Your task to perform on an android device: install app "Speedtest by Ookla" Image 0: 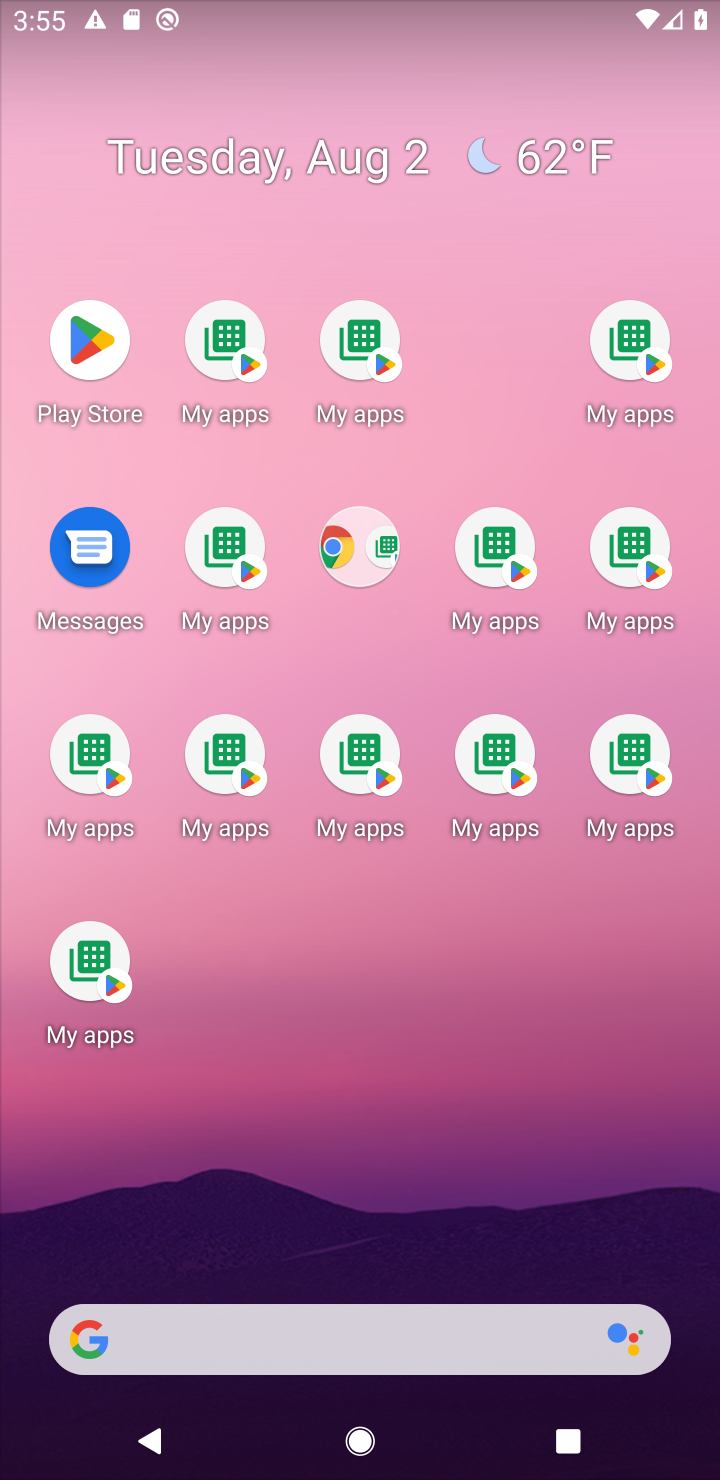
Step 0: click (329, 519)
Your task to perform on an android device: install app "Speedtest by Ookla" Image 1: 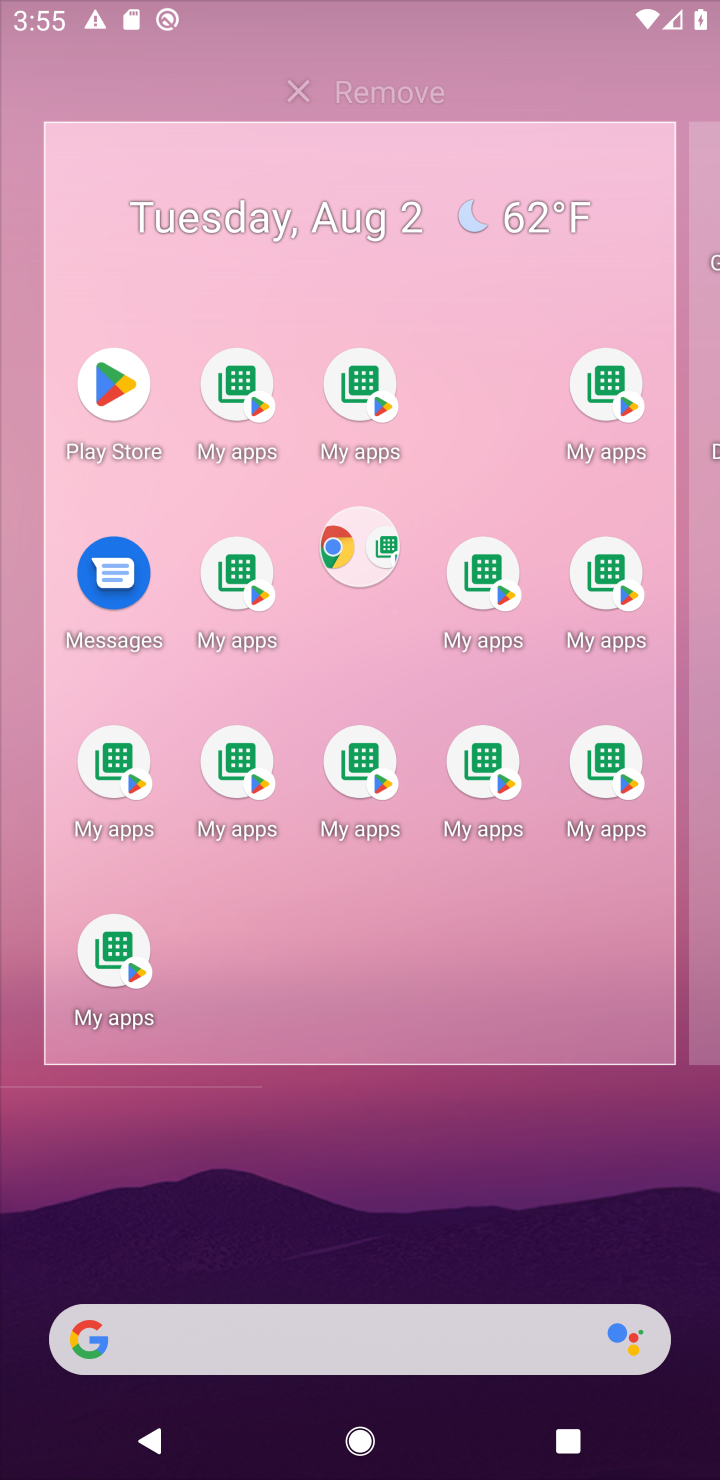
Step 1: click (124, 348)
Your task to perform on an android device: install app "Speedtest by Ookla" Image 2: 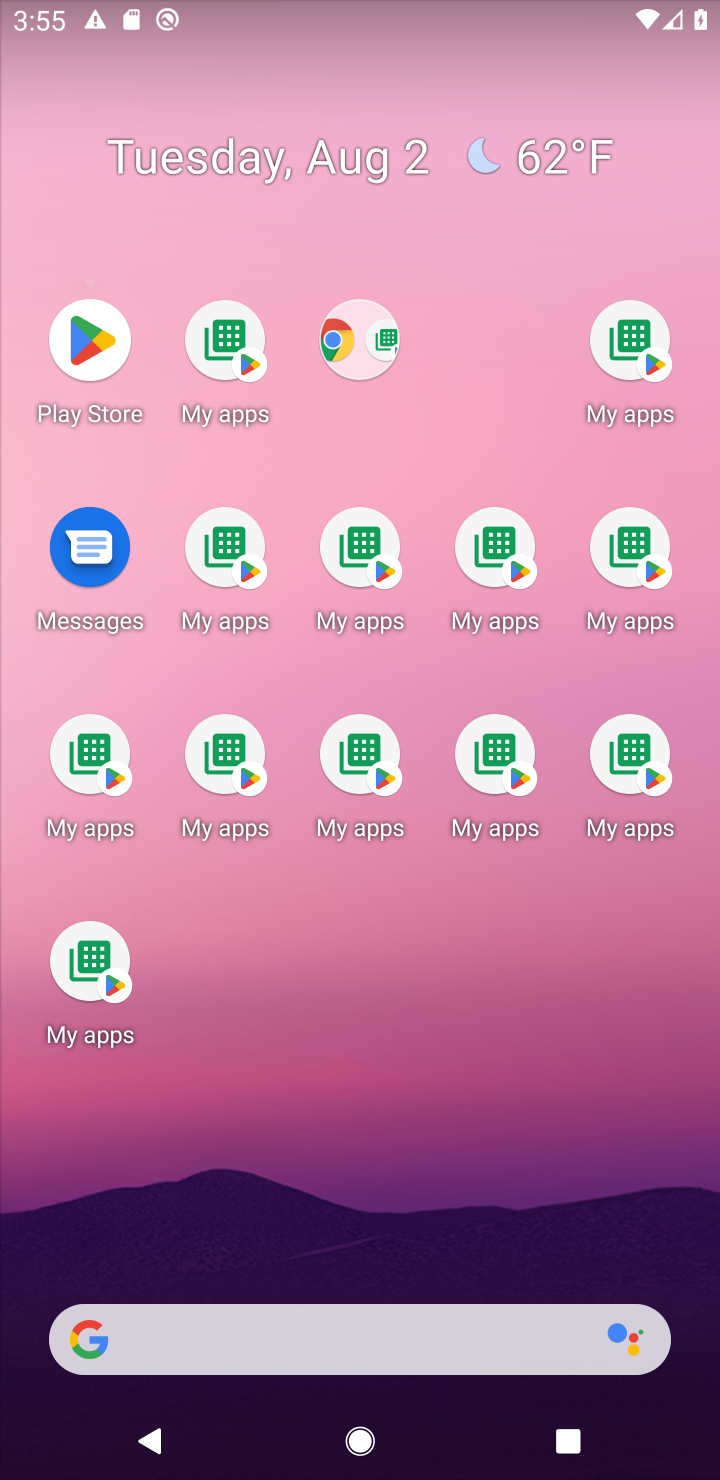
Step 2: click (82, 354)
Your task to perform on an android device: install app "Speedtest by Ookla" Image 3: 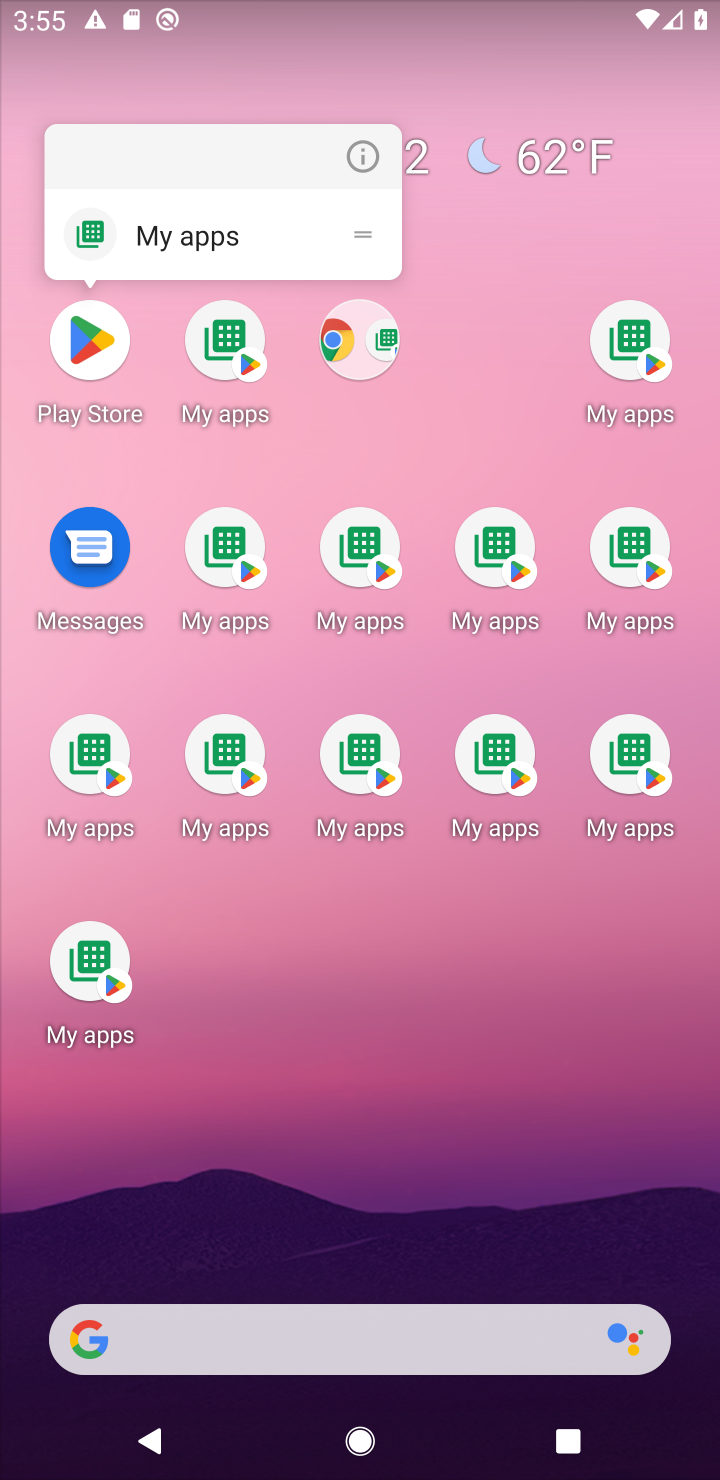
Step 3: click (94, 319)
Your task to perform on an android device: install app "Speedtest by Ookla" Image 4: 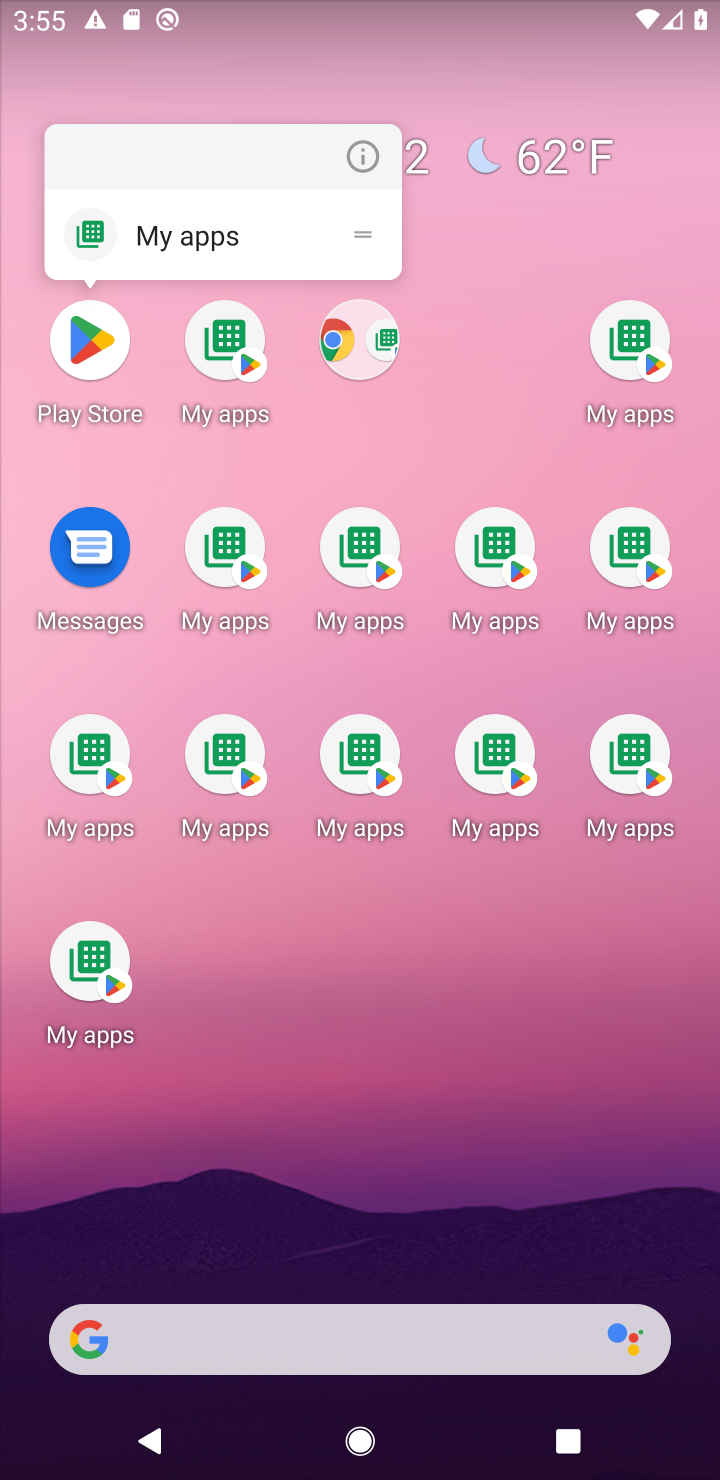
Step 4: click (117, 246)
Your task to perform on an android device: install app "Speedtest by Ookla" Image 5: 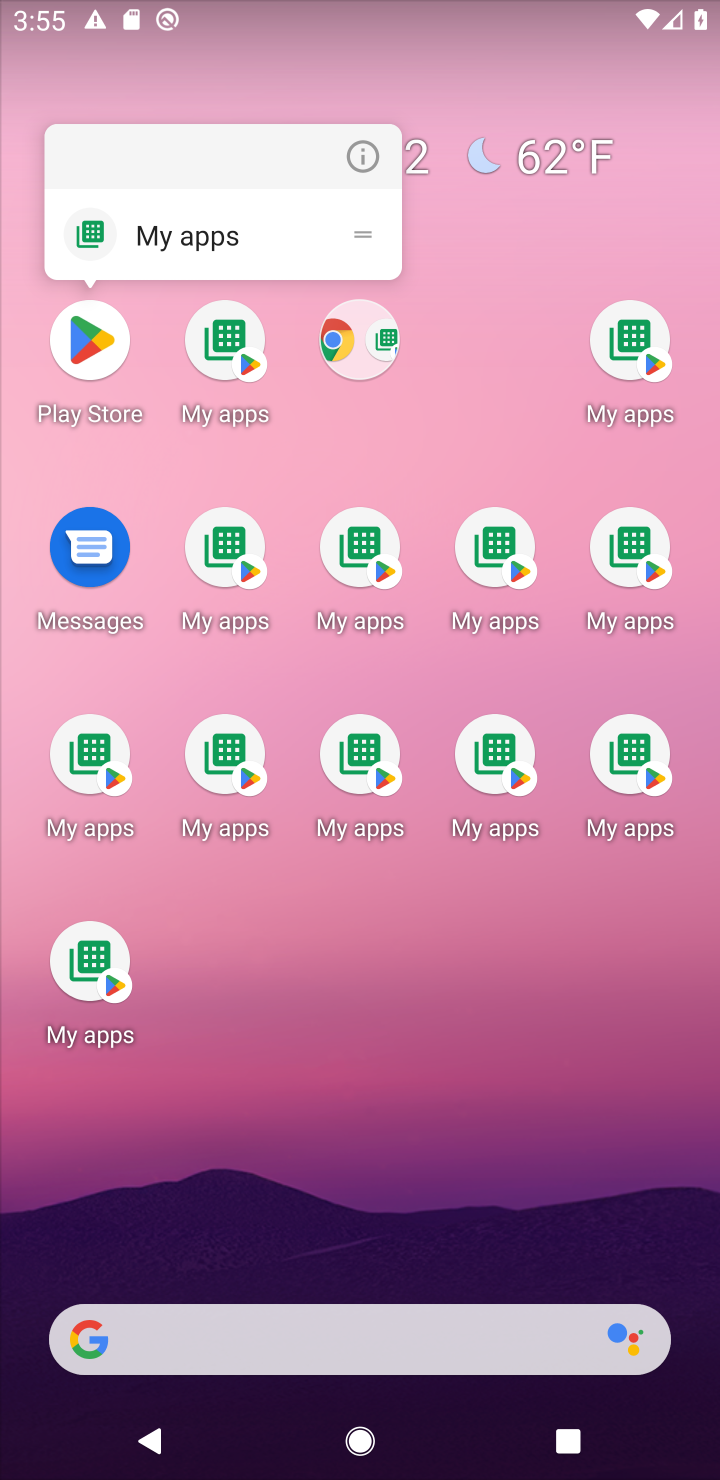
Step 5: click (178, 231)
Your task to perform on an android device: install app "Speedtest by Ookla" Image 6: 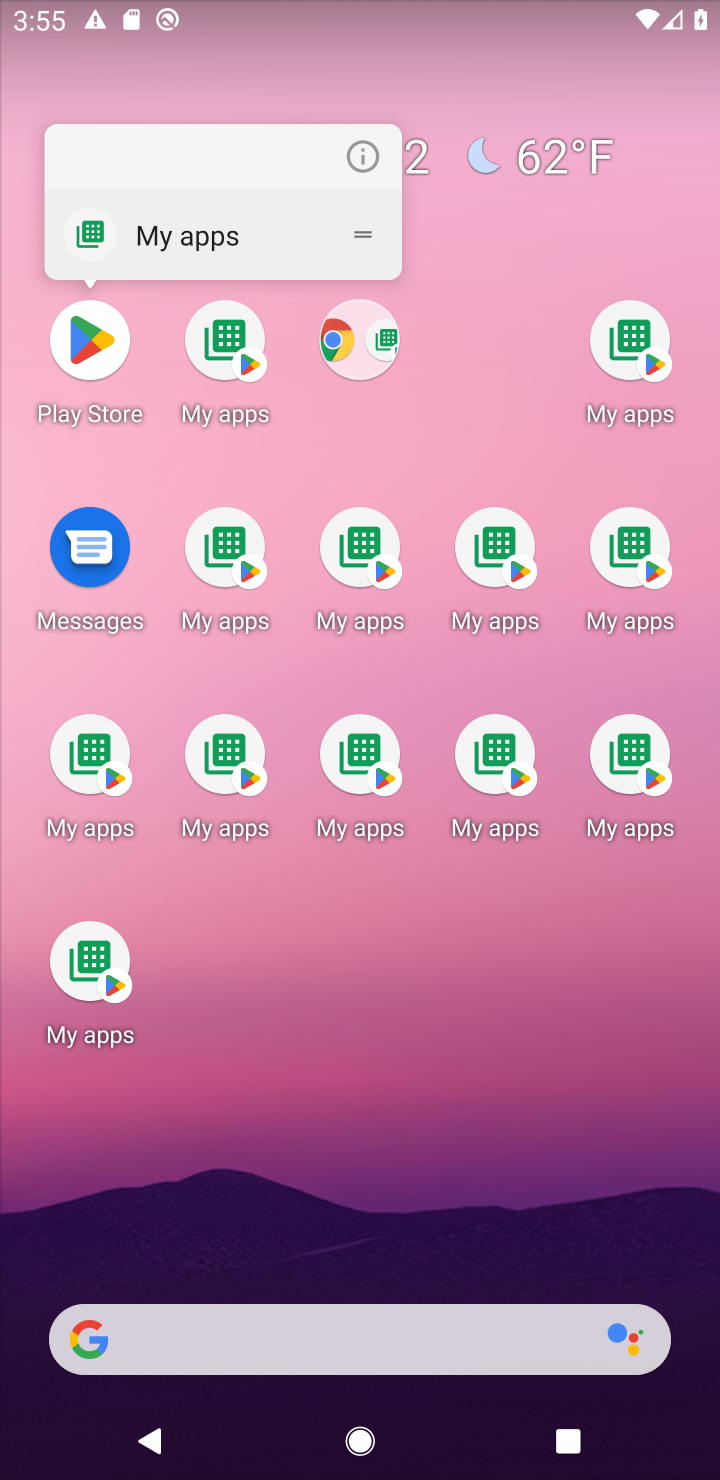
Step 6: click (263, 238)
Your task to perform on an android device: install app "Speedtest by Ookla" Image 7: 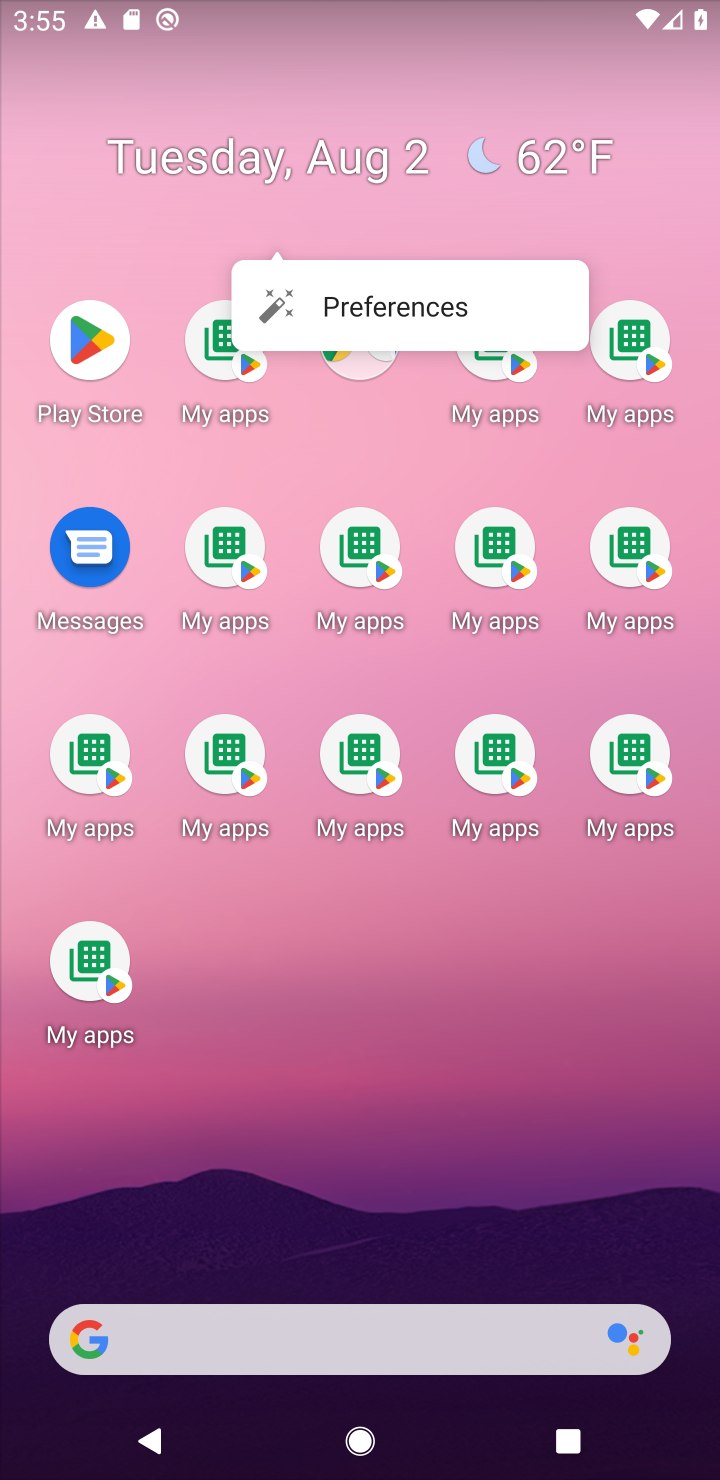
Step 7: click (301, 107)
Your task to perform on an android device: install app "Speedtest by Ookla" Image 8: 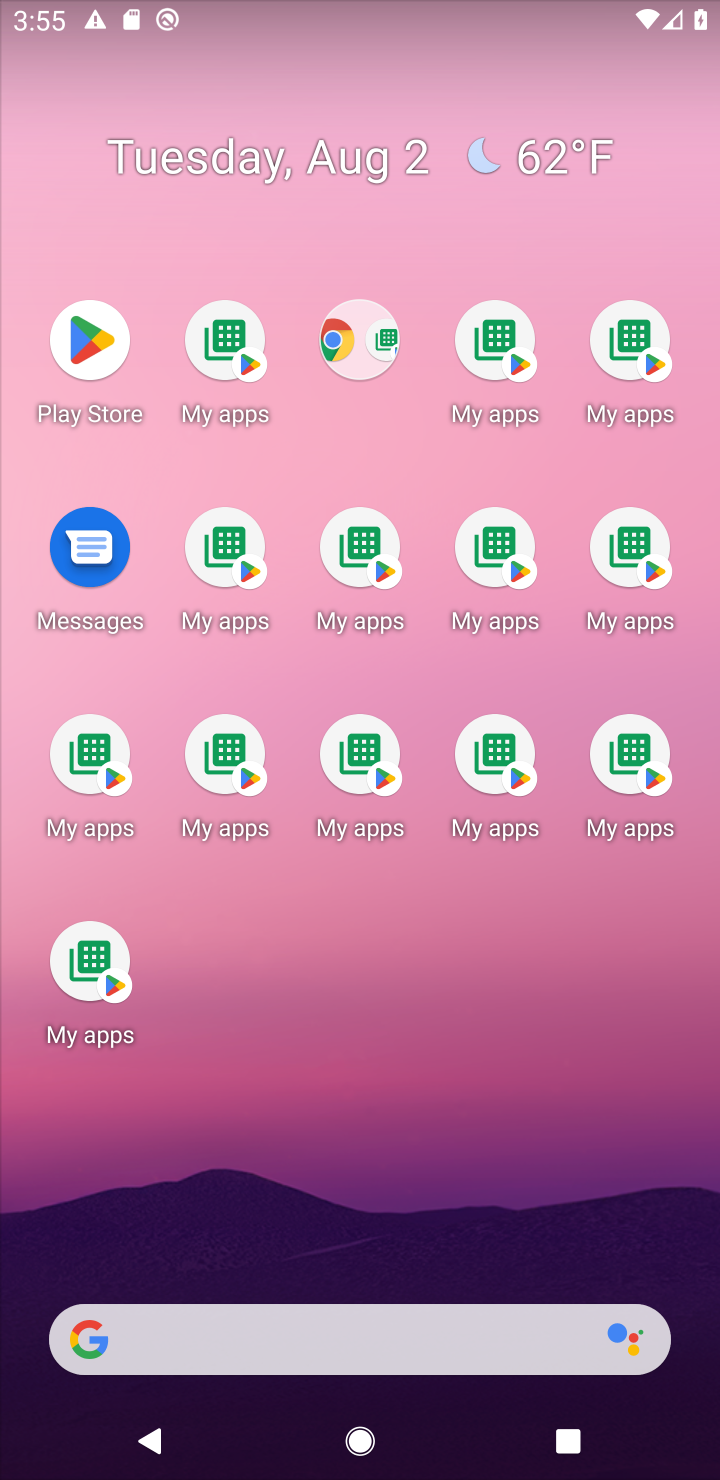
Step 8: drag from (446, 436) to (322, 483)
Your task to perform on an android device: install app "Speedtest by Ookla" Image 9: 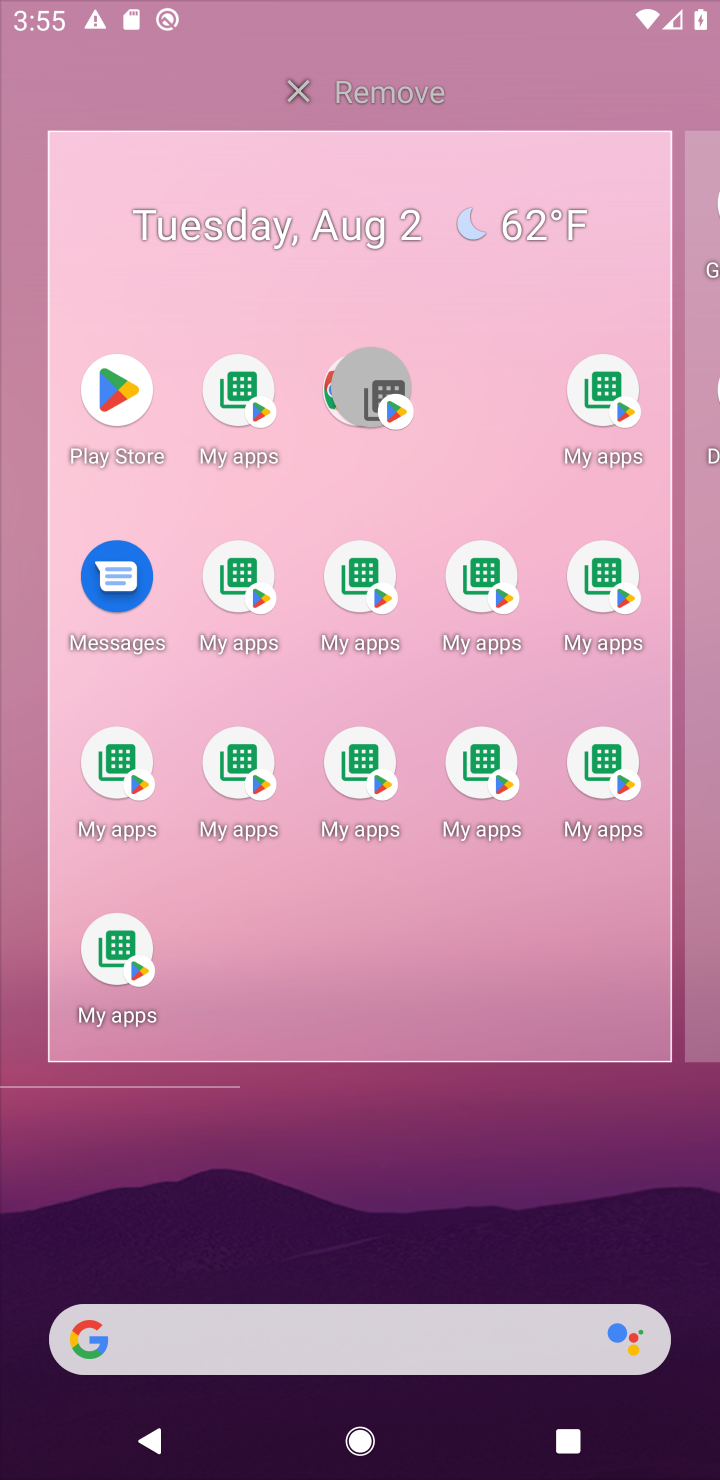
Step 9: click (267, 307)
Your task to perform on an android device: install app "Speedtest by Ookla" Image 10: 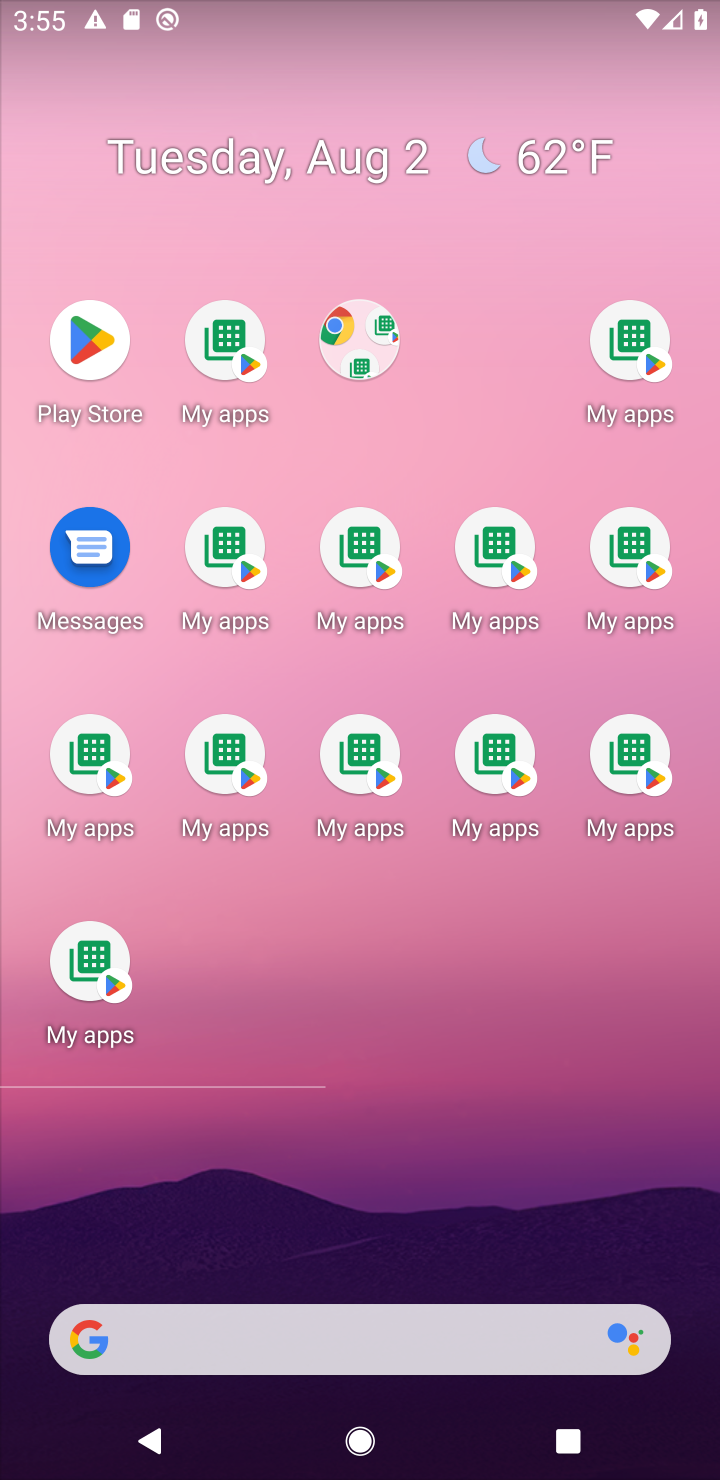
Step 10: click (68, 335)
Your task to perform on an android device: install app "Speedtest by Ookla" Image 11: 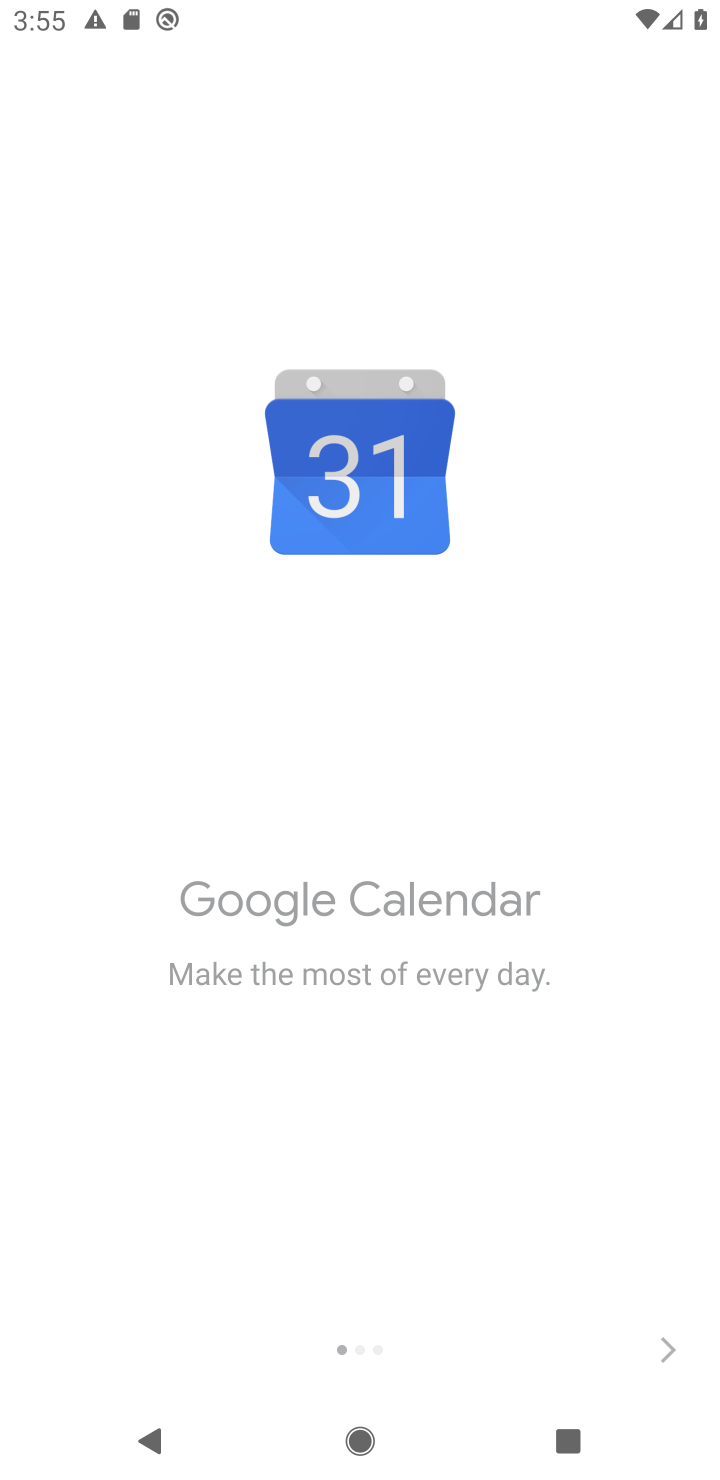
Step 11: click (82, 338)
Your task to perform on an android device: install app "Speedtest by Ookla" Image 12: 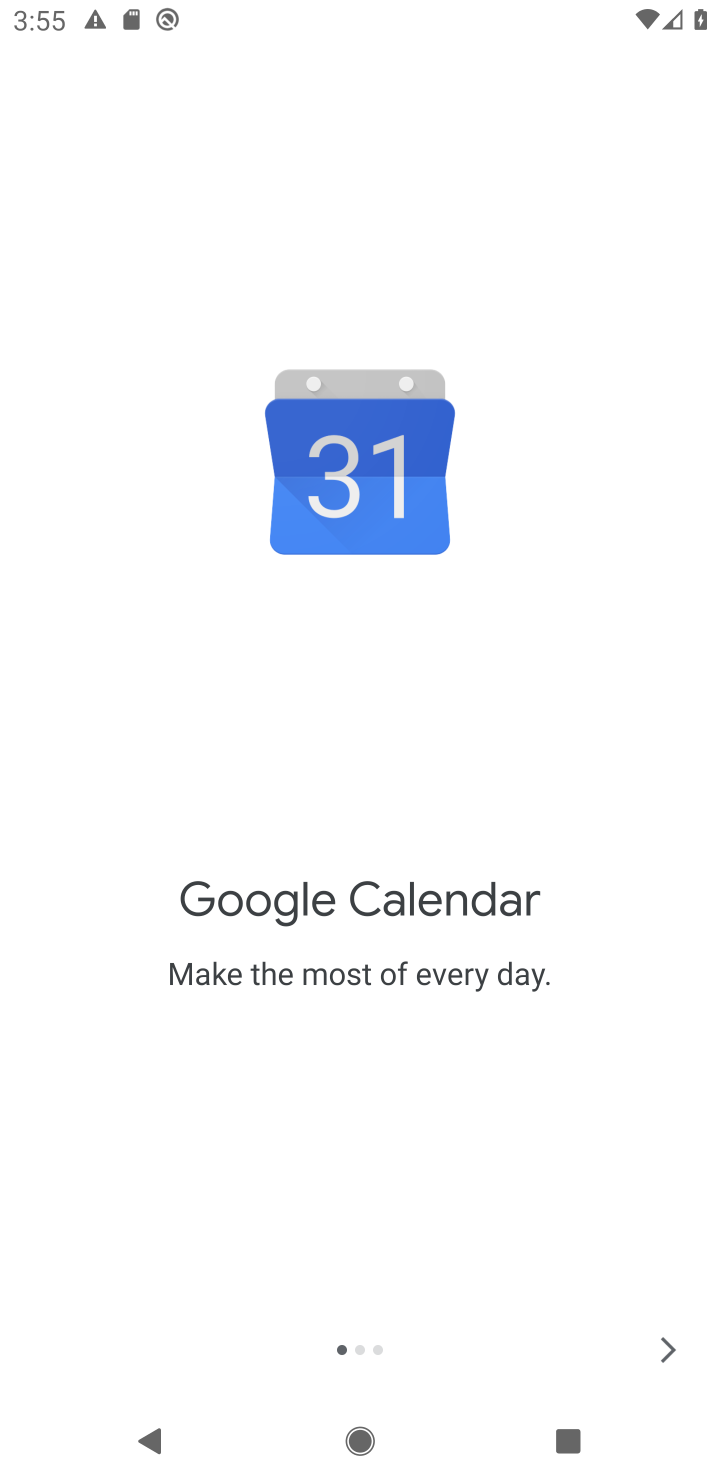
Step 12: click (679, 1330)
Your task to perform on an android device: install app "Speedtest by Ookla" Image 13: 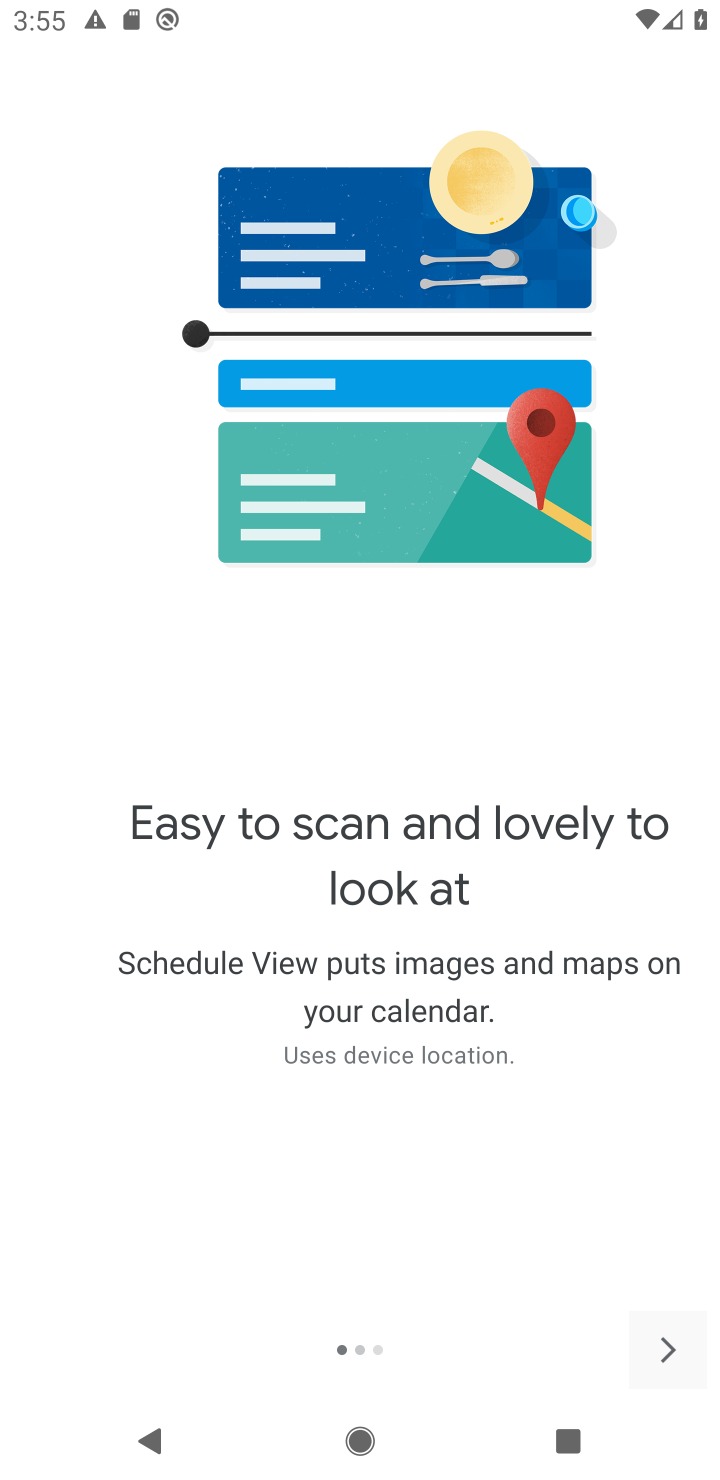
Step 13: click (663, 1332)
Your task to perform on an android device: install app "Speedtest by Ookla" Image 14: 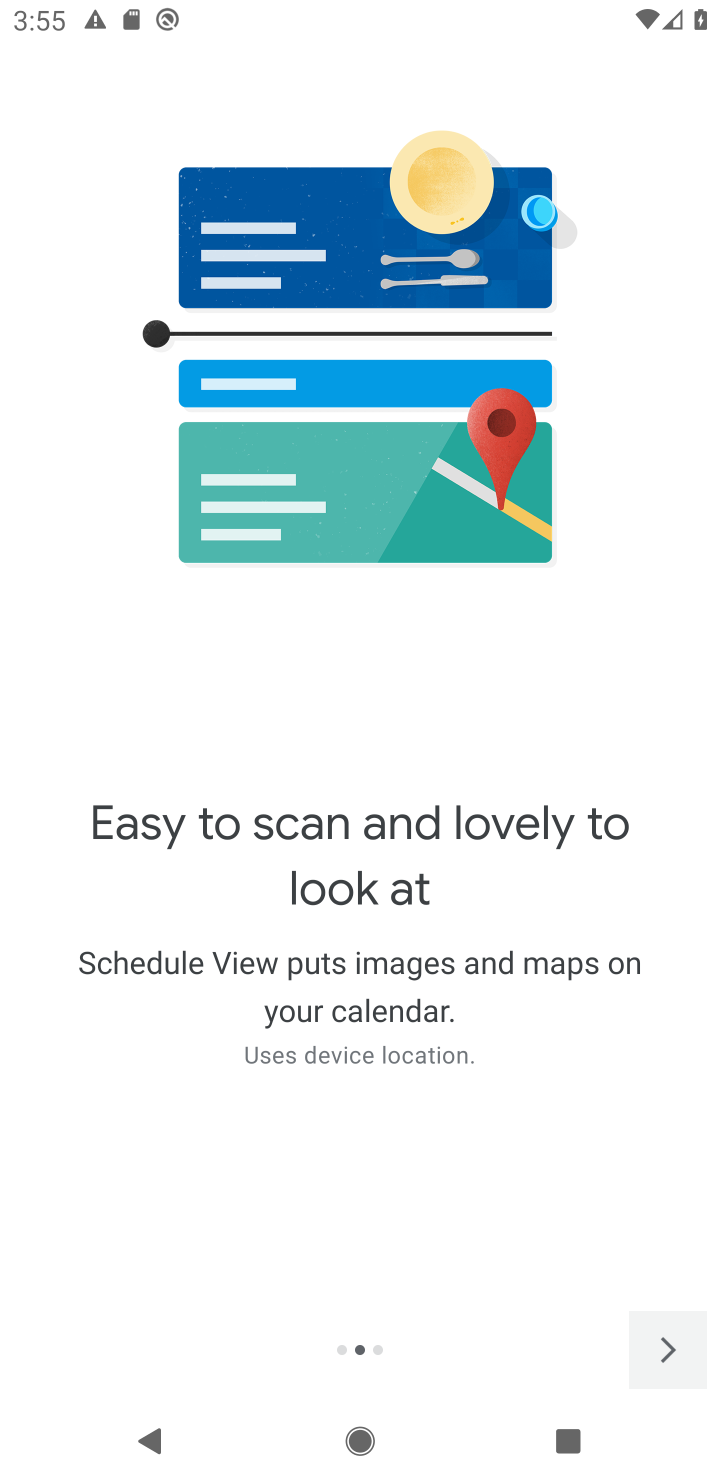
Step 14: click (656, 1330)
Your task to perform on an android device: install app "Speedtest by Ookla" Image 15: 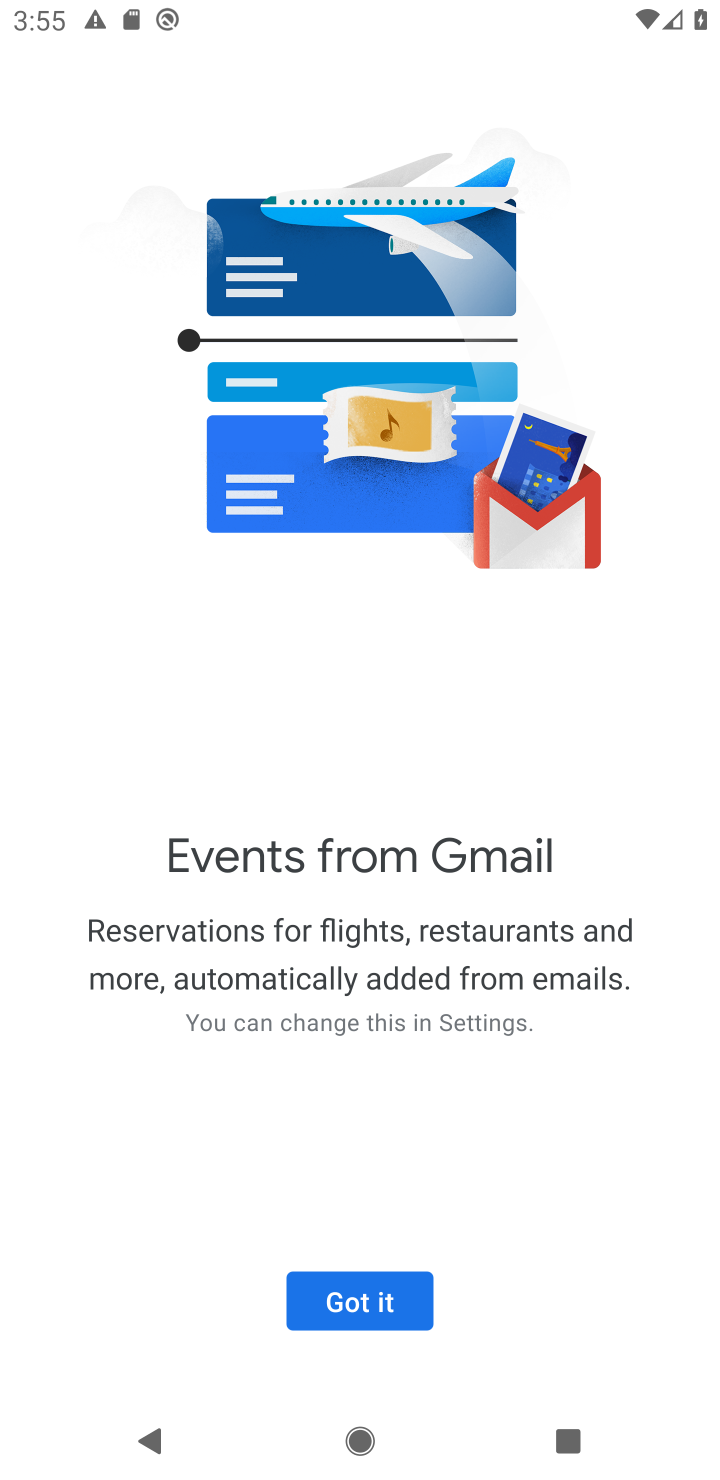
Step 15: click (651, 1345)
Your task to perform on an android device: install app "Speedtest by Ookla" Image 16: 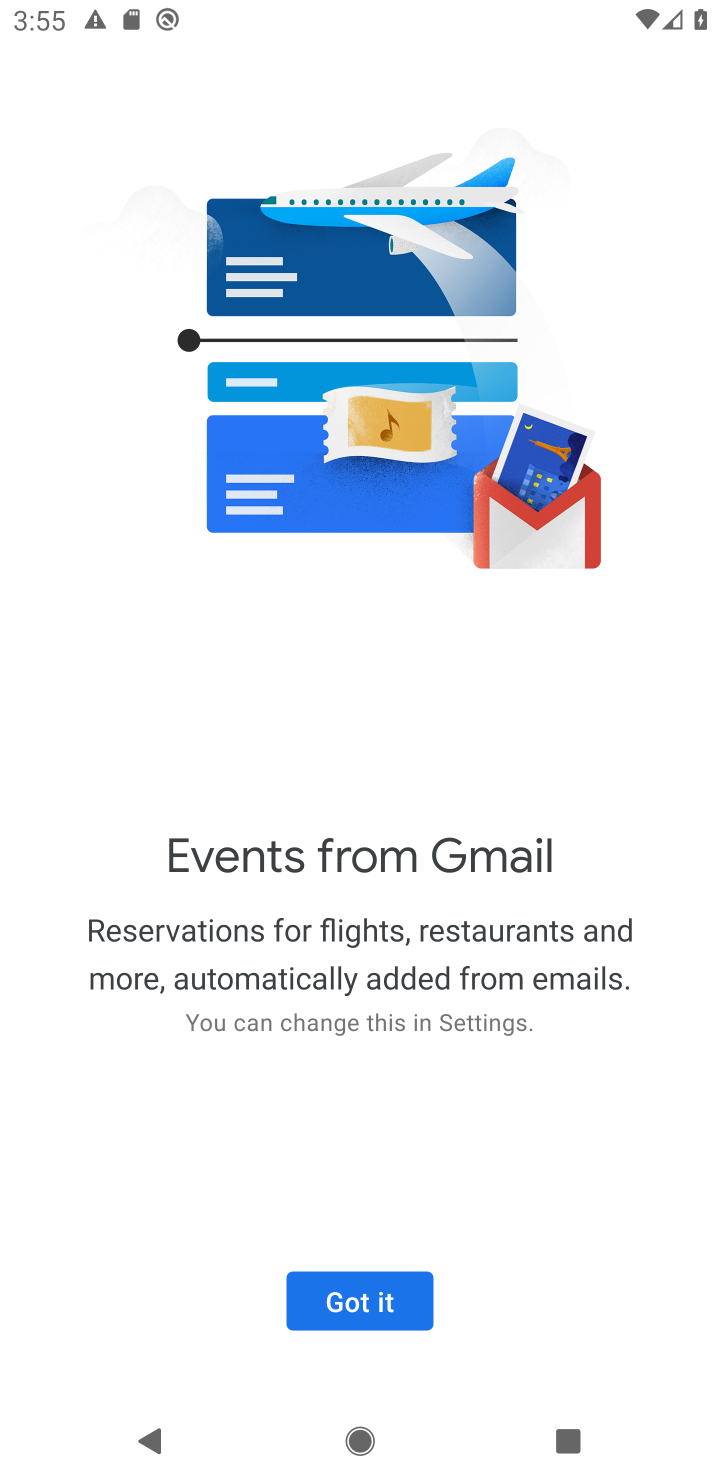
Step 16: click (361, 1275)
Your task to perform on an android device: install app "Speedtest by Ookla" Image 17: 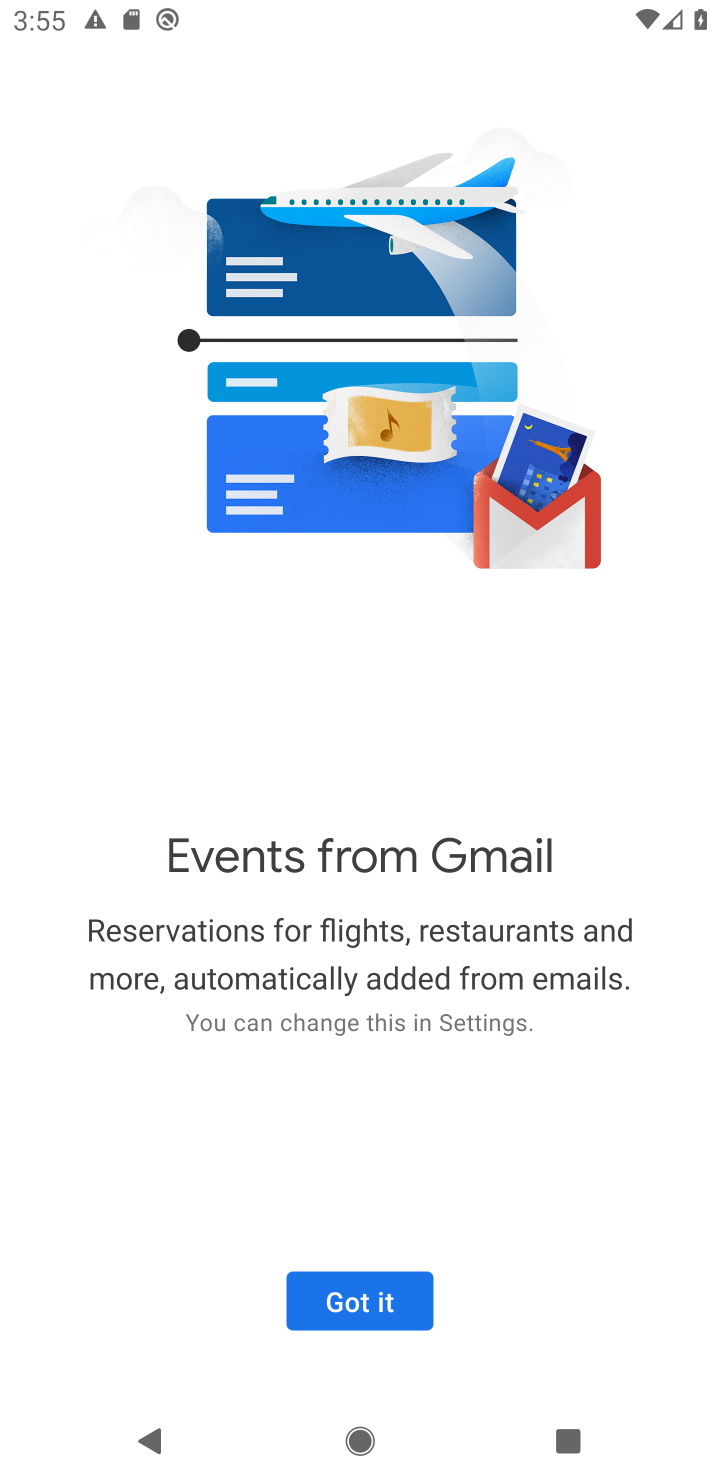
Step 17: click (372, 1295)
Your task to perform on an android device: install app "Speedtest by Ookla" Image 18: 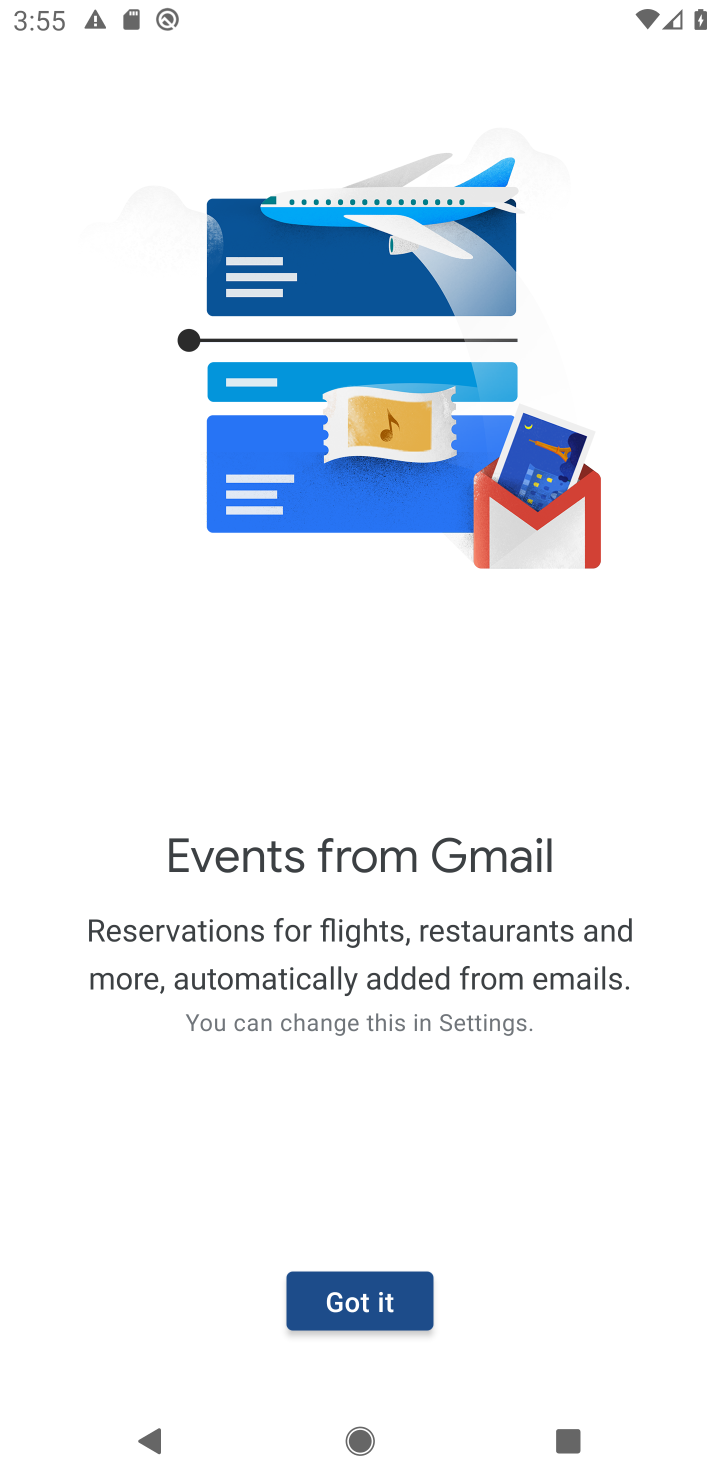
Step 18: click (395, 1314)
Your task to perform on an android device: install app "Speedtest by Ookla" Image 19: 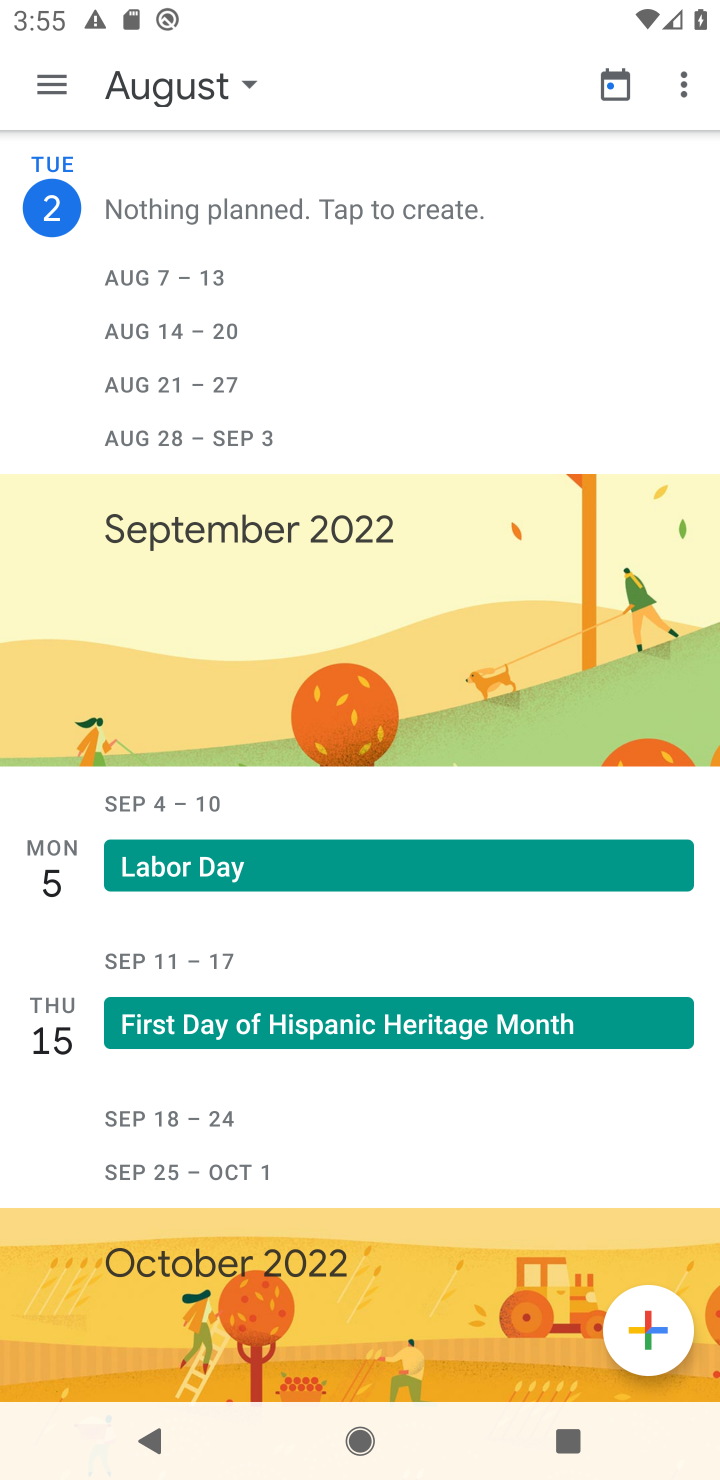
Step 19: press back button
Your task to perform on an android device: install app "Speedtest by Ookla" Image 20: 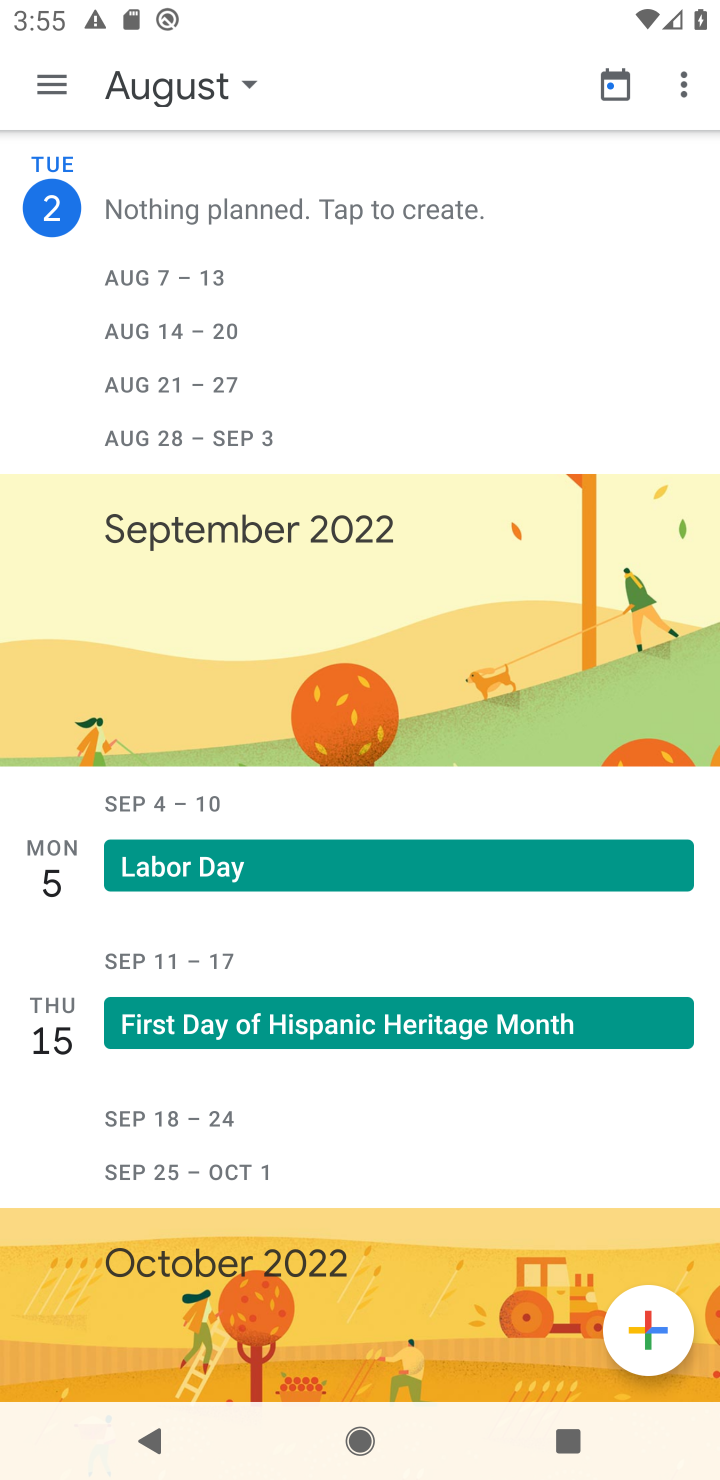
Step 20: press back button
Your task to perform on an android device: install app "Speedtest by Ookla" Image 21: 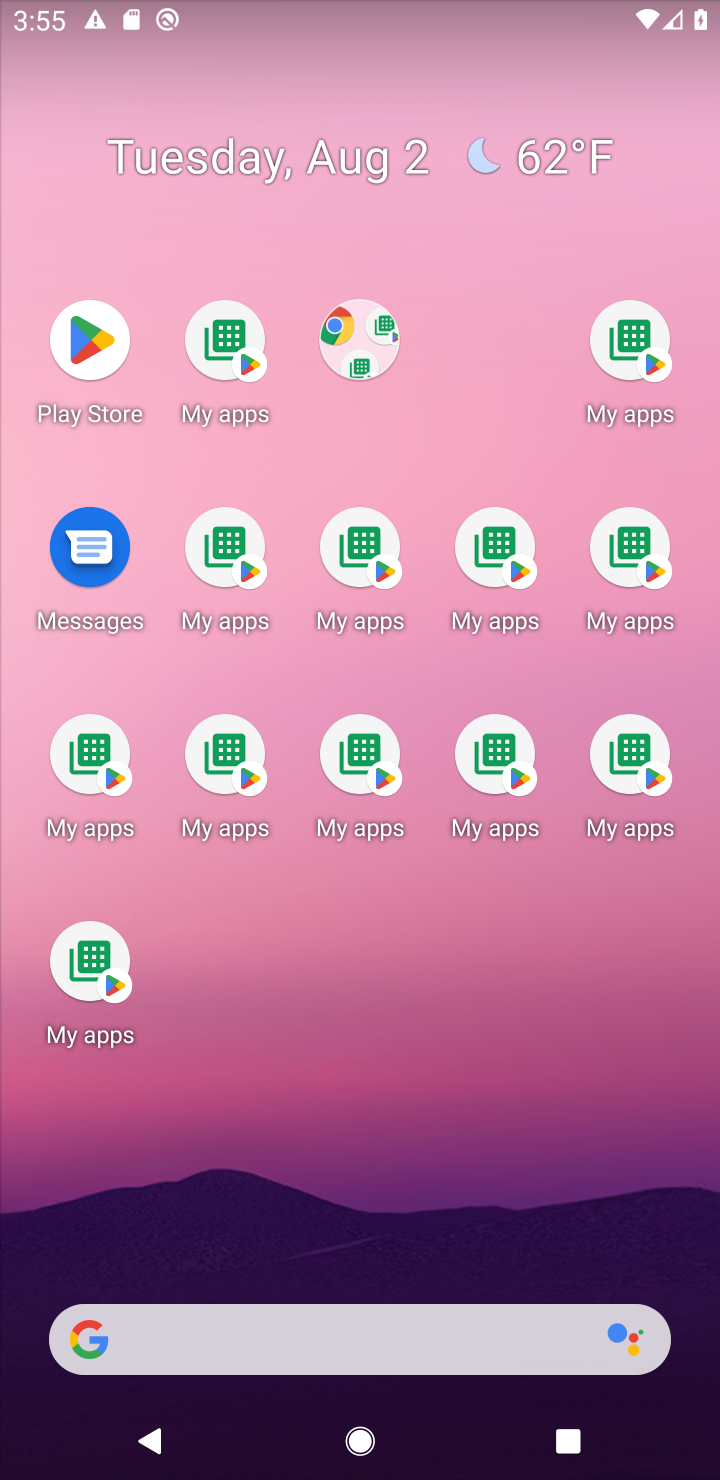
Step 21: click (107, 332)
Your task to perform on an android device: install app "Speedtest by Ookla" Image 22: 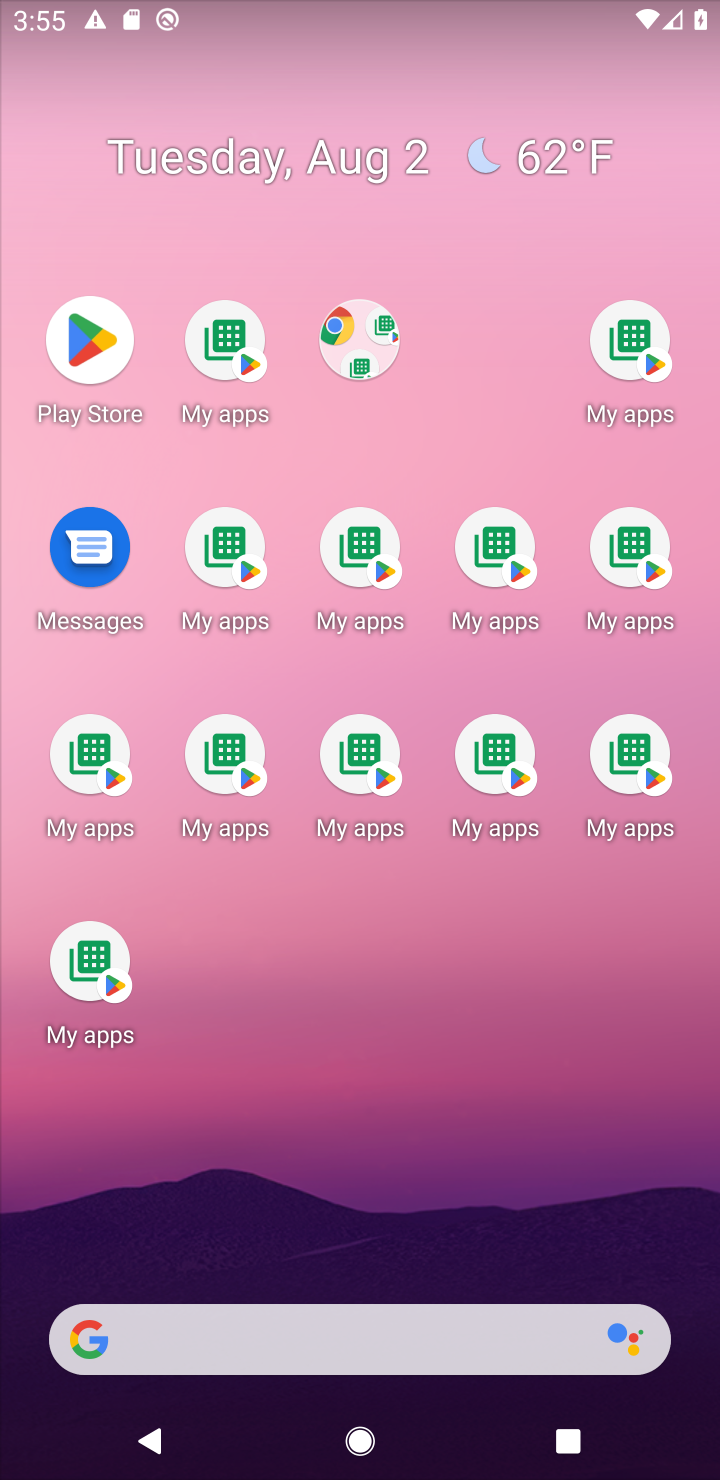
Step 22: click (102, 339)
Your task to perform on an android device: install app "Speedtest by Ookla" Image 23: 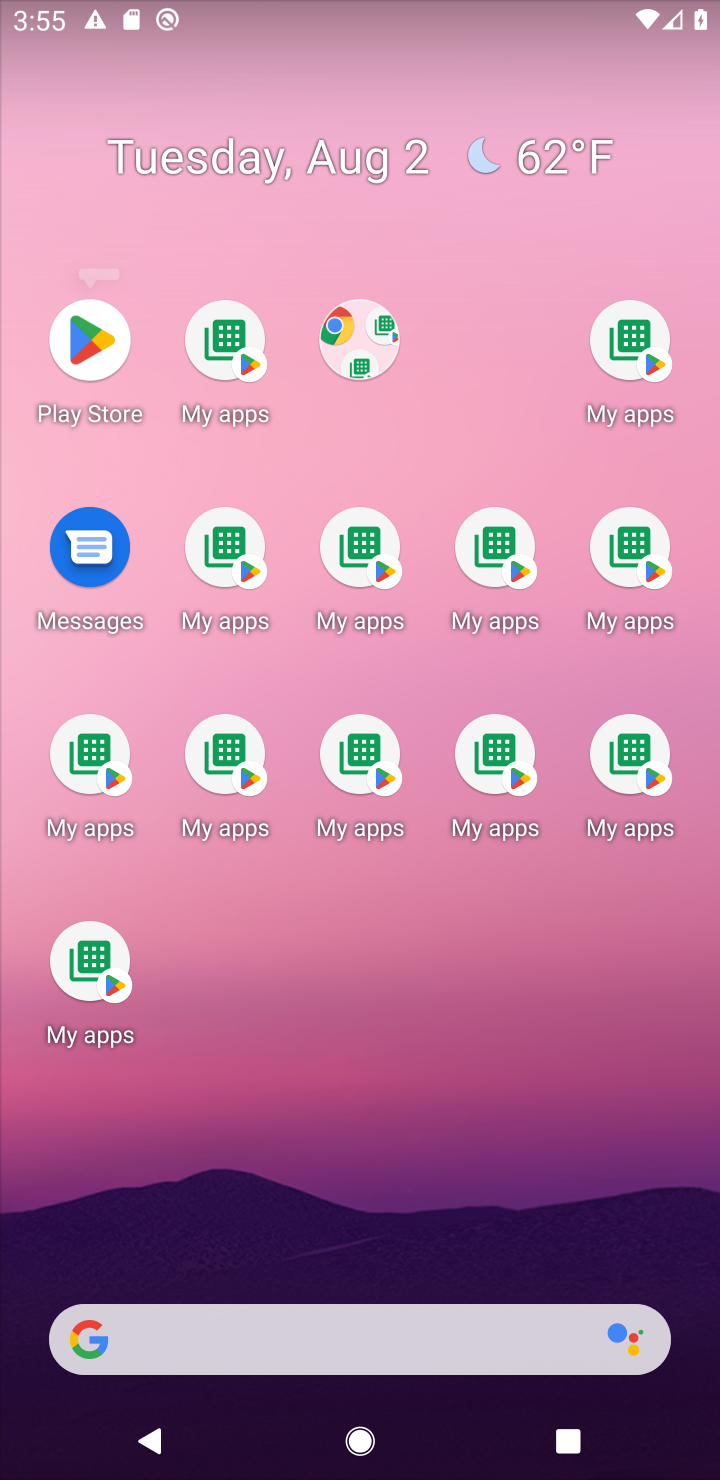
Step 23: click (93, 365)
Your task to perform on an android device: install app "Speedtest by Ookla" Image 24: 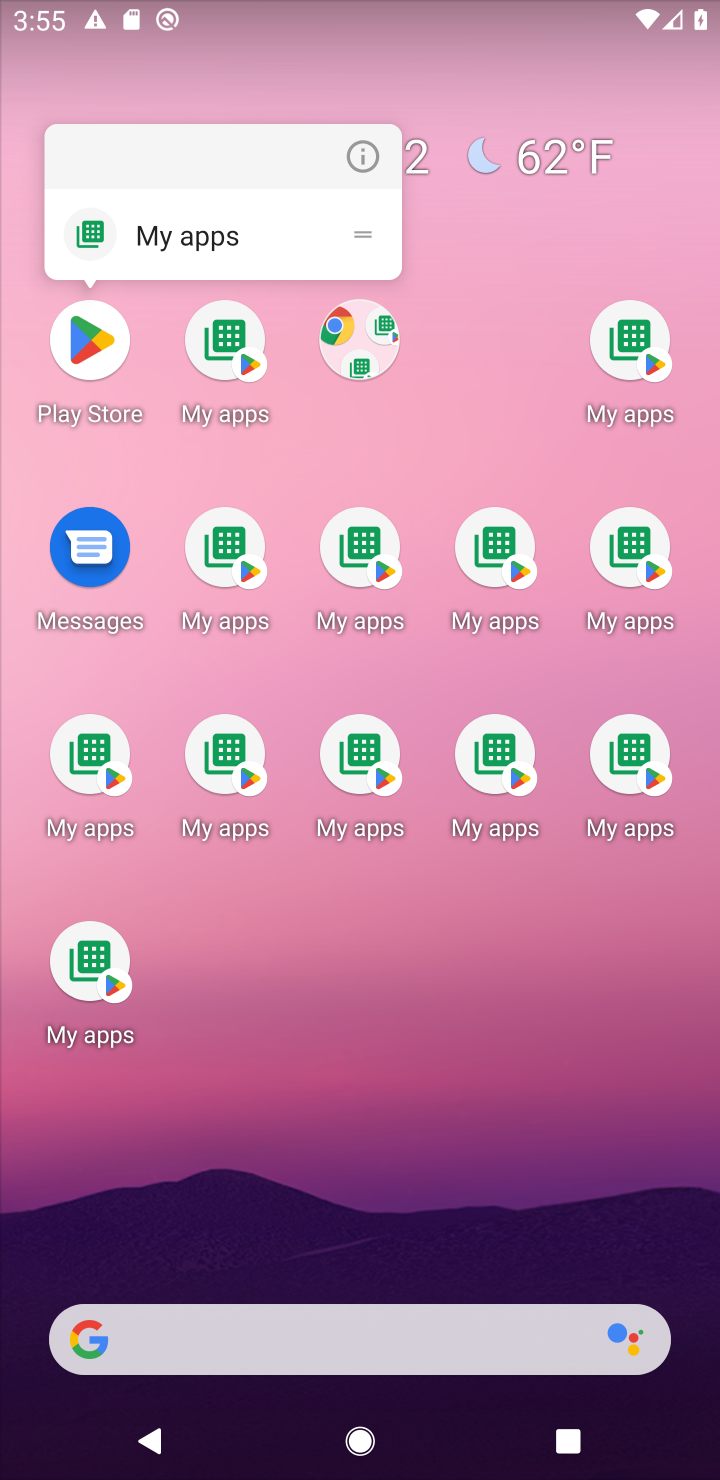
Step 24: click (97, 345)
Your task to perform on an android device: install app "Speedtest by Ookla" Image 25: 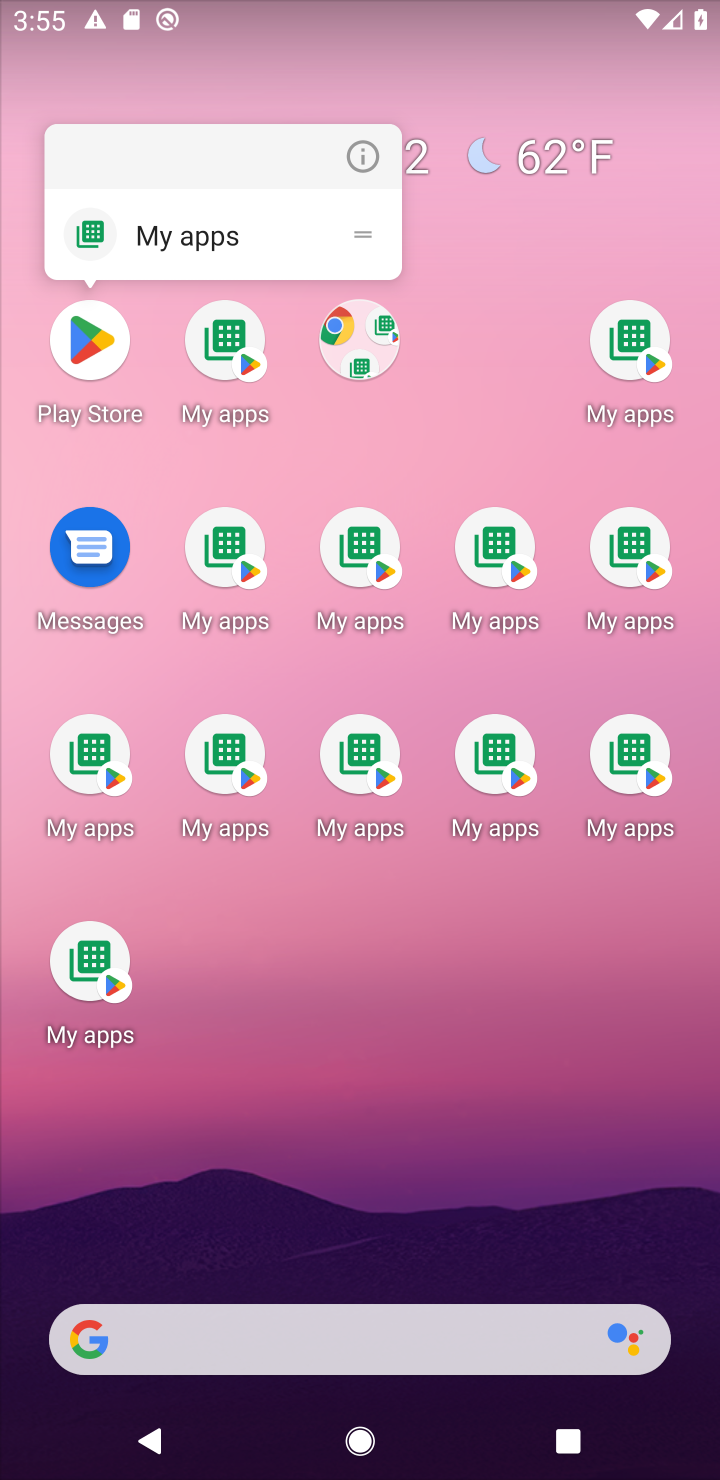
Step 25: click (97, 346)
Your task to perform on an android device: install app "Speedtest by Ookla" Image 26: 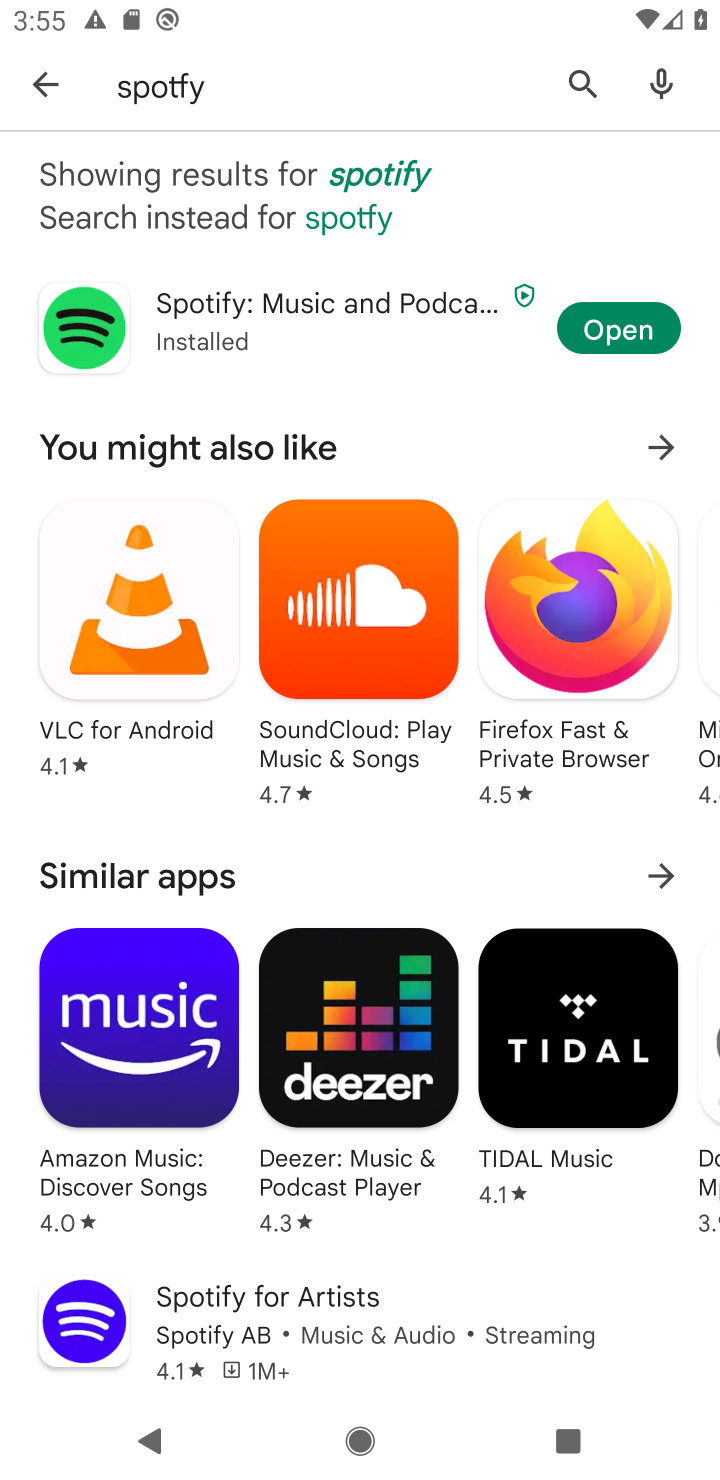
Step 26: click (641, 338)
Your task to perform on an android device: install app "Speedtest by Ookla" Image 27: 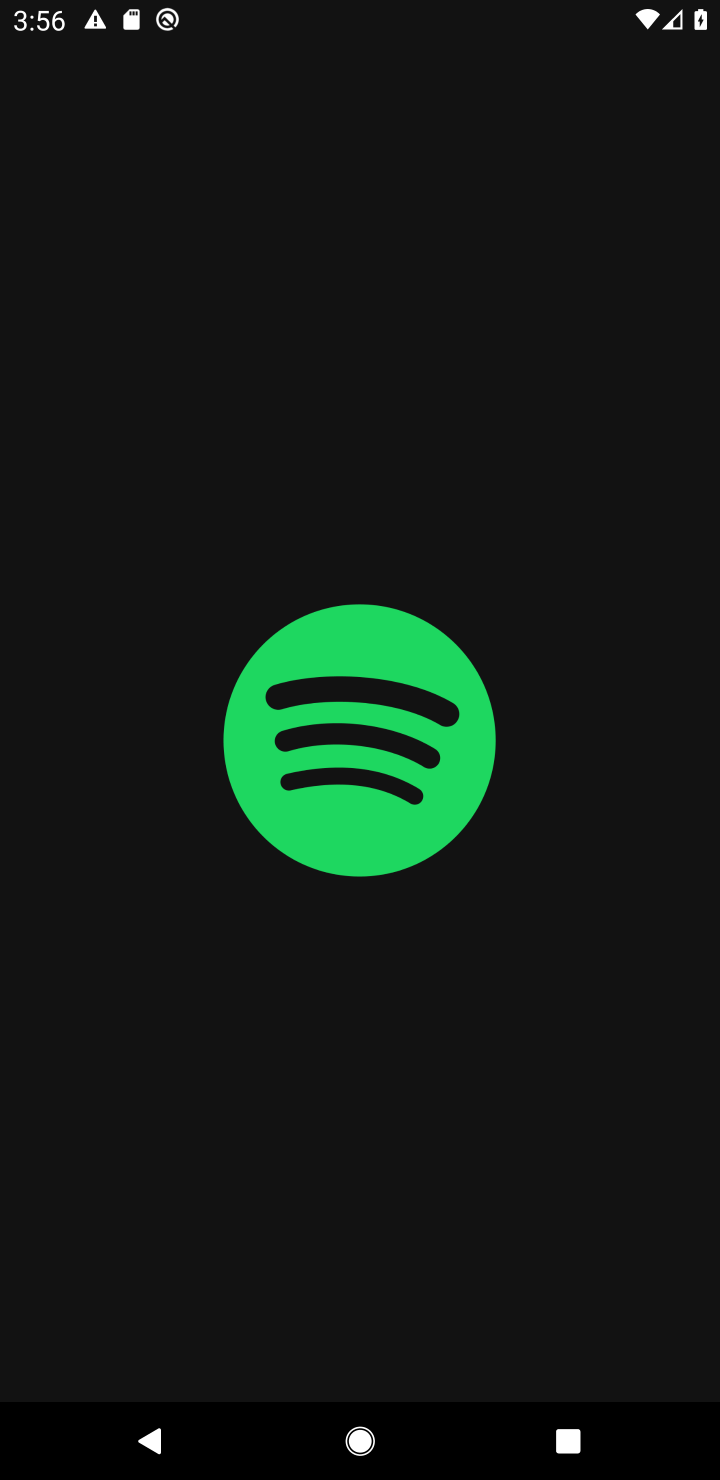
Step 27: drag from (366, 798) to (266, 310)
Your task to perform on an android device: install app "Speedtest by Ookla" Image 28: 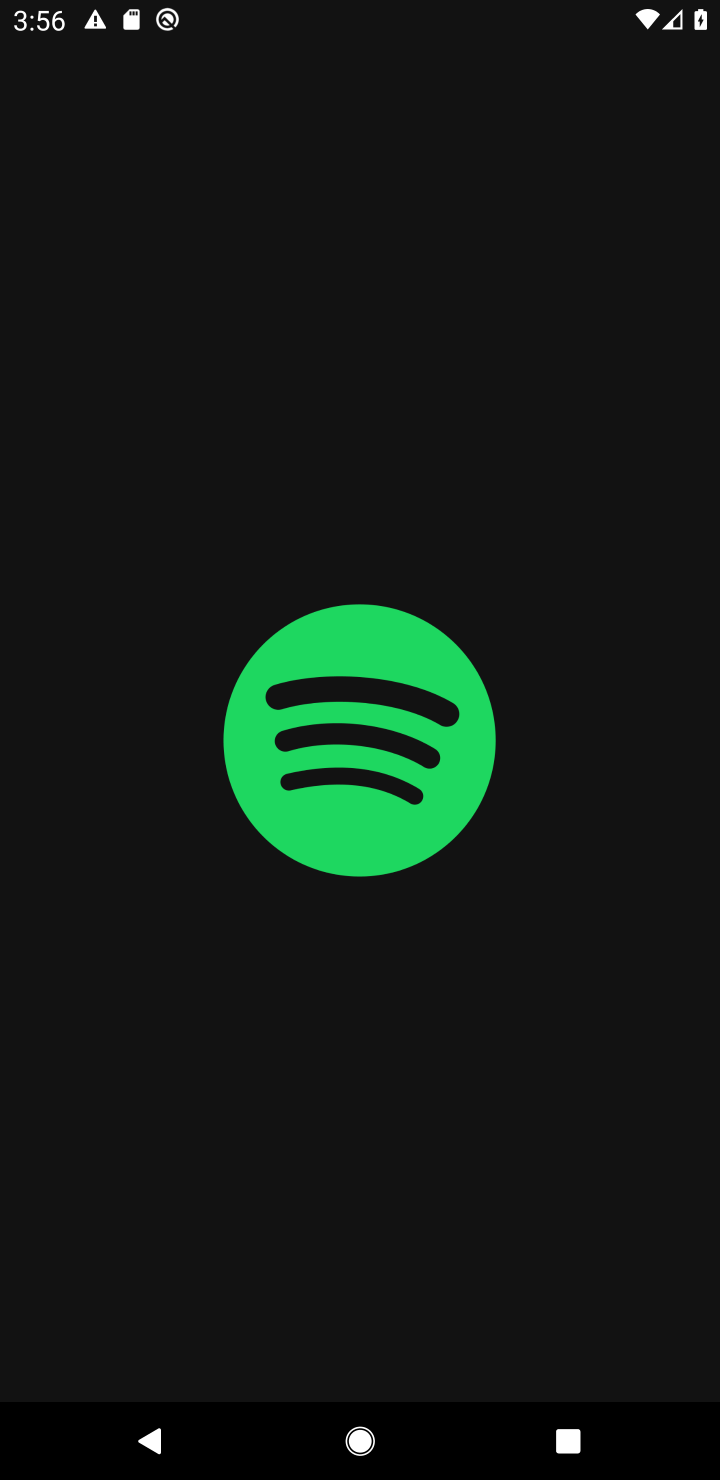
Step 28: drag from (329, 1024) to (339, 584)
Your task to perform on an android device: install app "Speedtest by Ookla" Image 29: 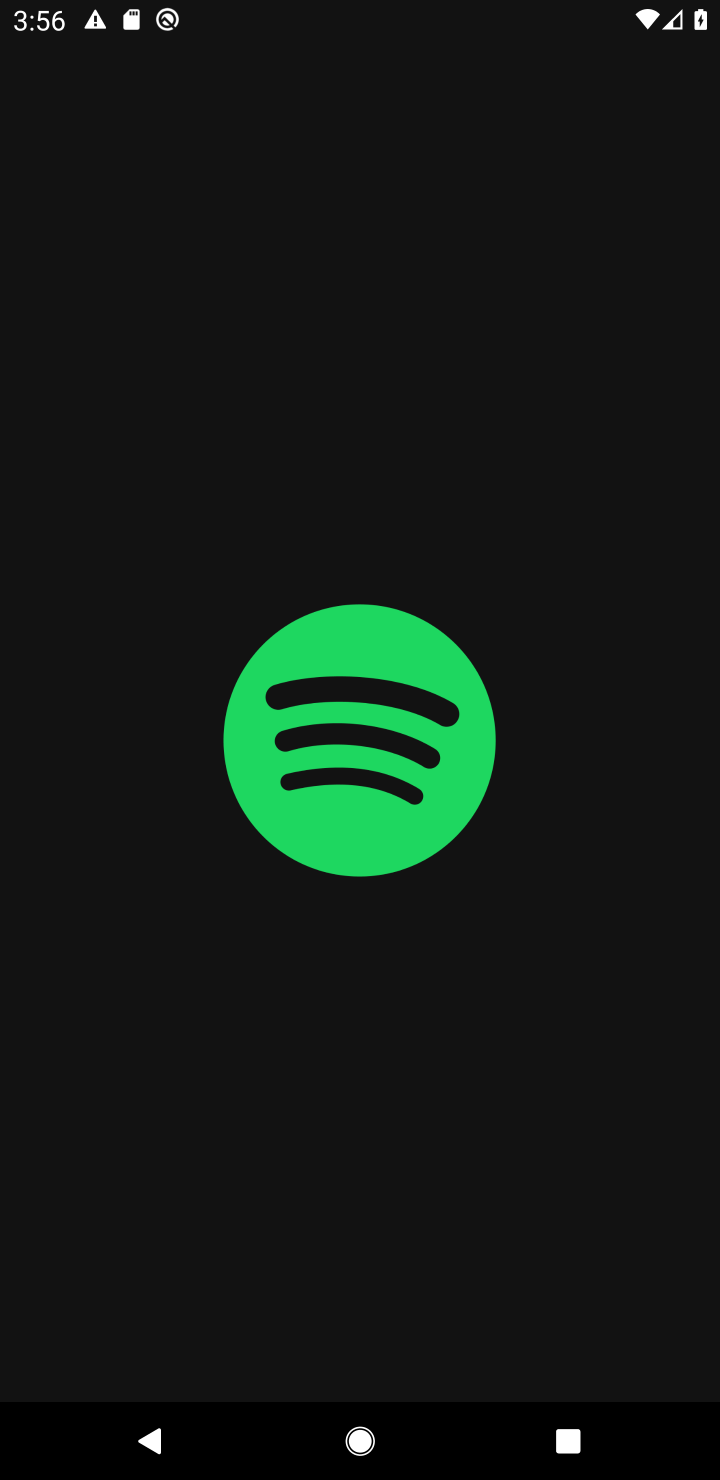
Step 29: drag from (281, 972) to (234, 488)
Your task to perform on an android device: install app "Speedtest by Ookla" Image 30: 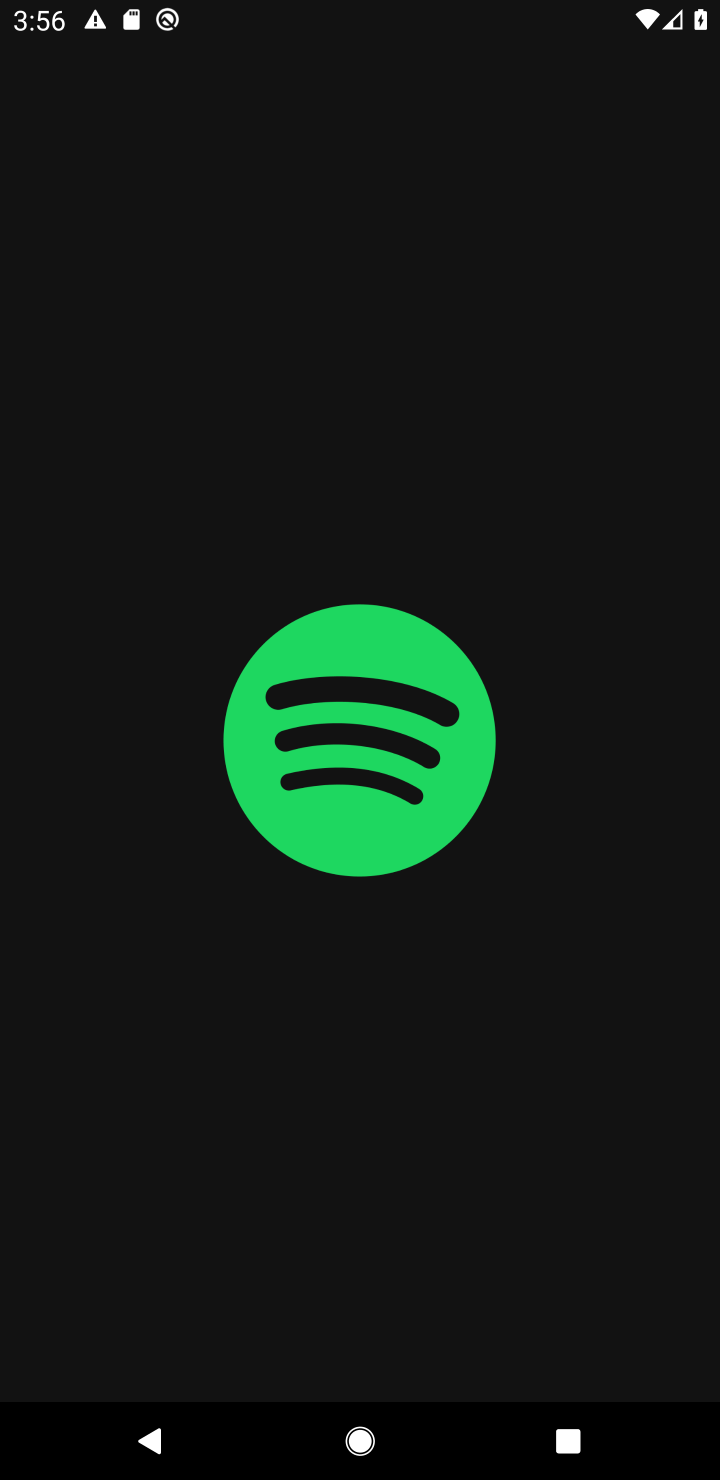
Step 30: drag from (233, 941) to (239, 458)
Your task to perform on an android device: install app "Speedtest by Ookla" Image 31: 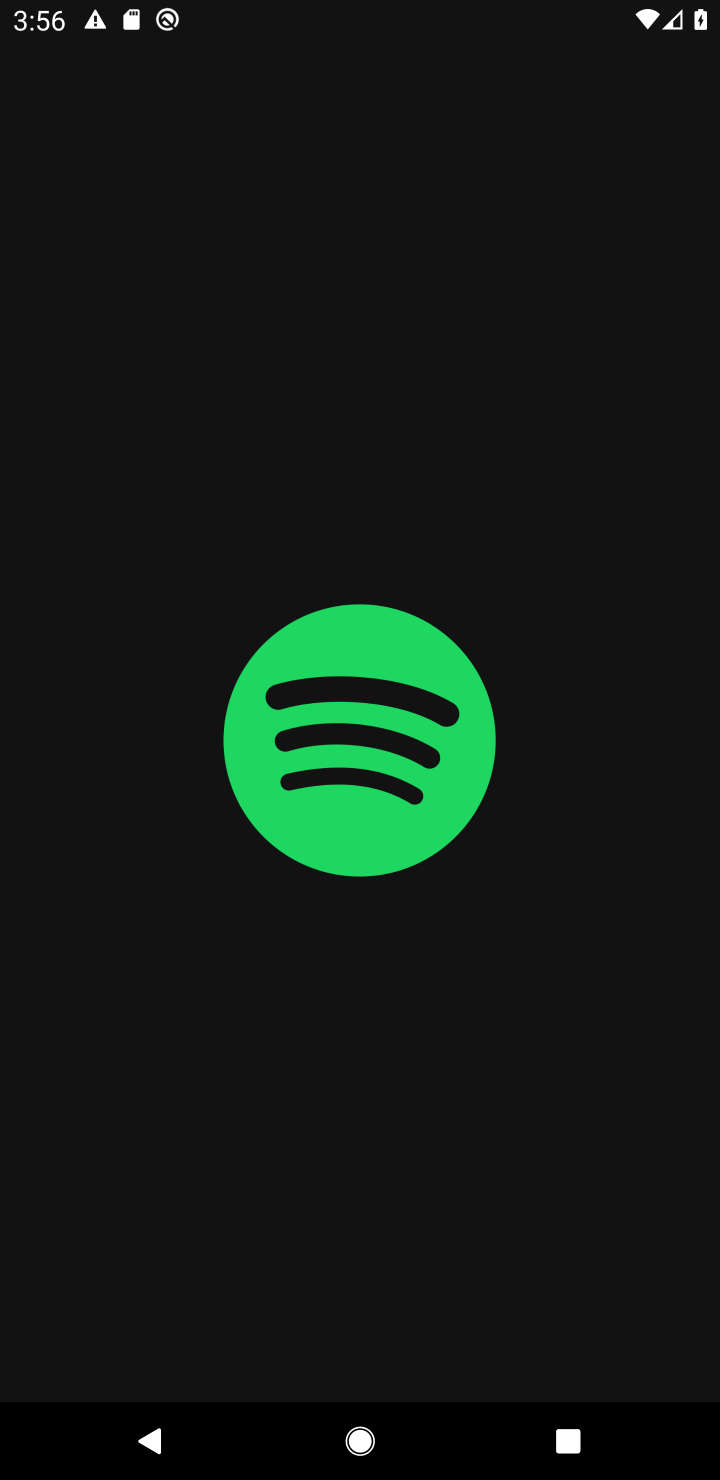
Step 31: drag from (286, 835) to (246, 396)
Your task to perform on an android device: install app "Speedtest by Ookla" Image 32: 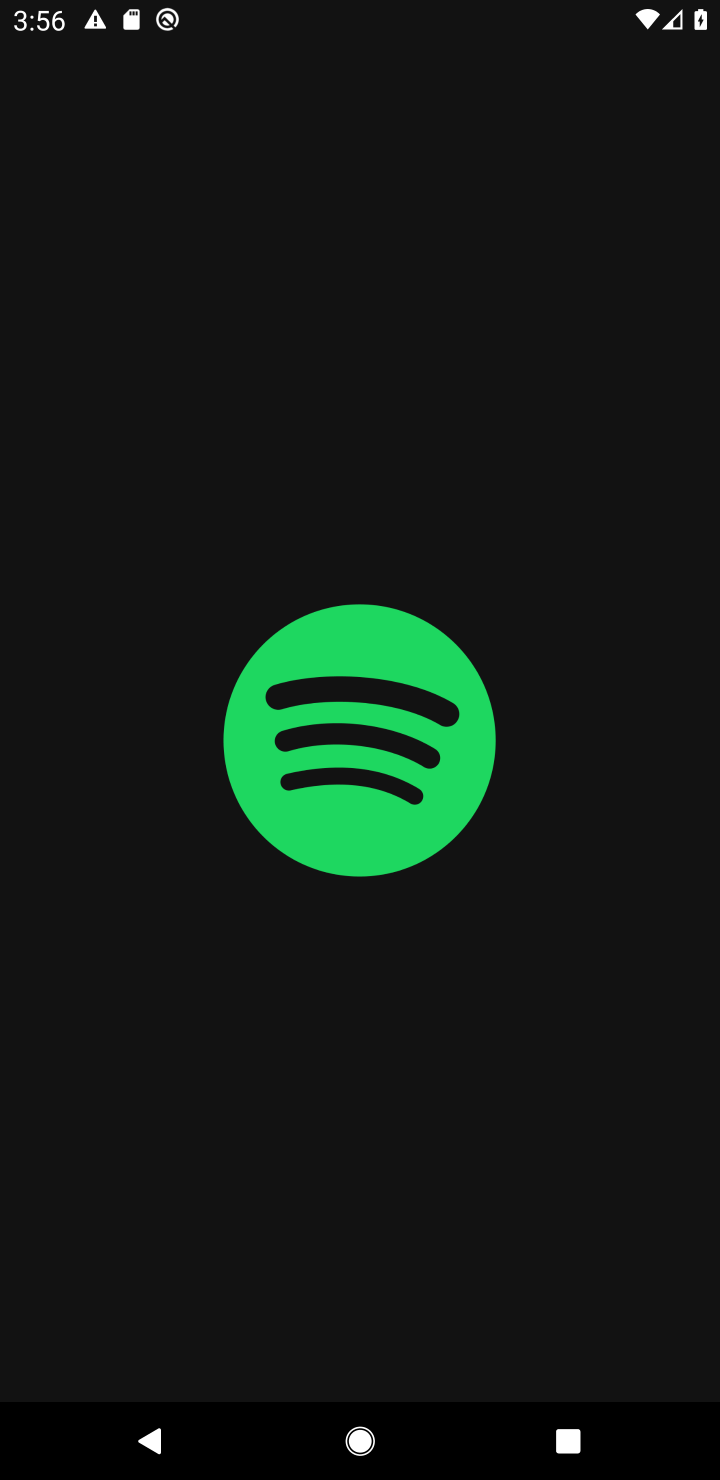
Step 32: drag from (361, 751) to (375, 441)
Your task to perform on an android device: install app "Speedtest by Ookla" Image 33: 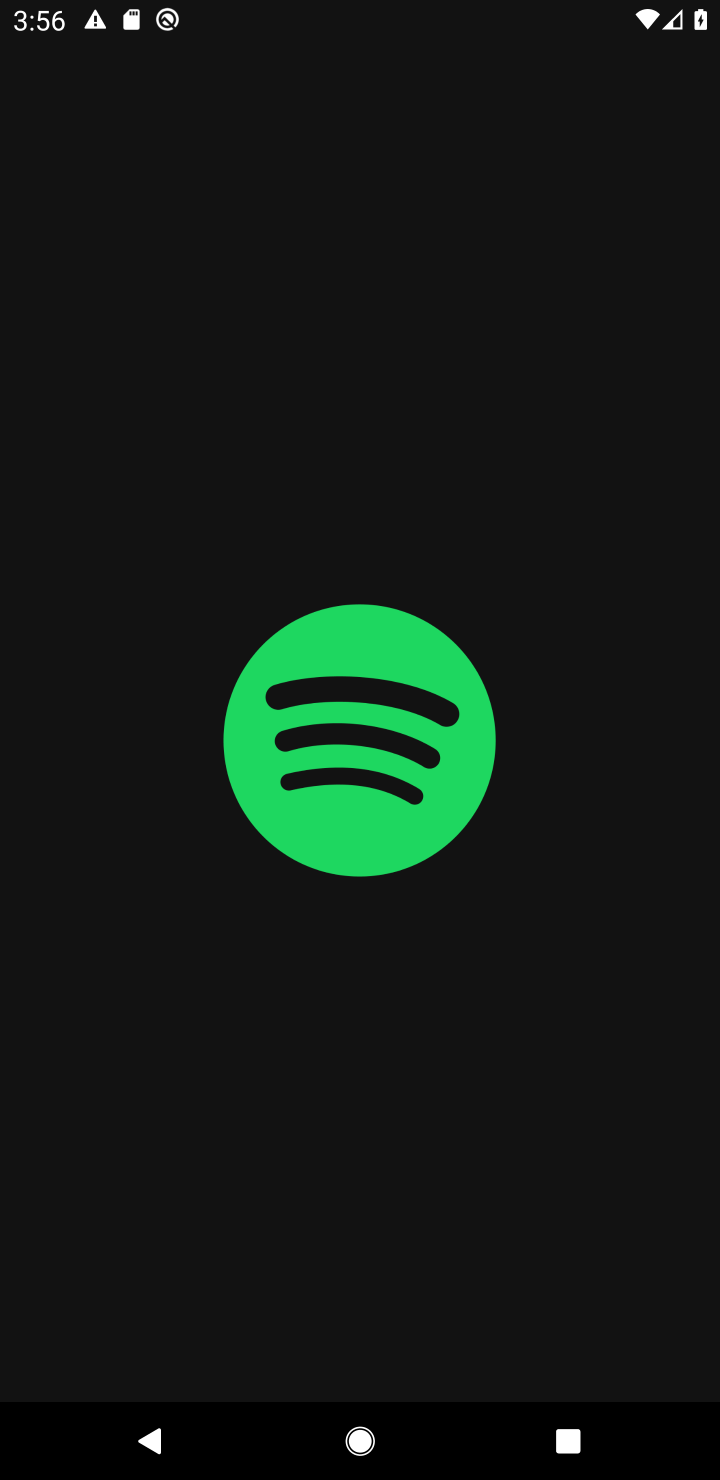
Step 33: click (455, 306)
Your task to perform on an android device: install app "Speedtest by Ookla" Image 34: 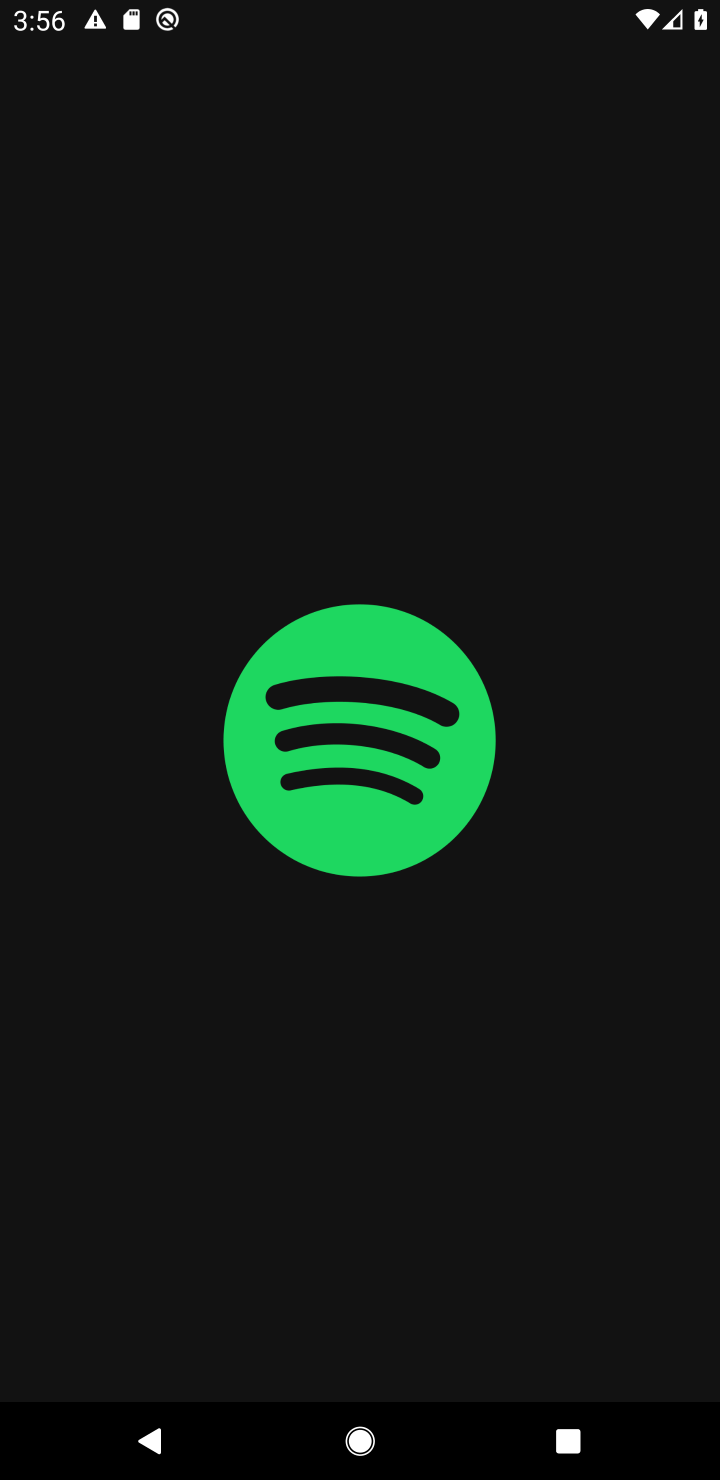
Step 34: press back button
Your task to perform on an android device: install app "Speedtest by Ookla" Image 35: 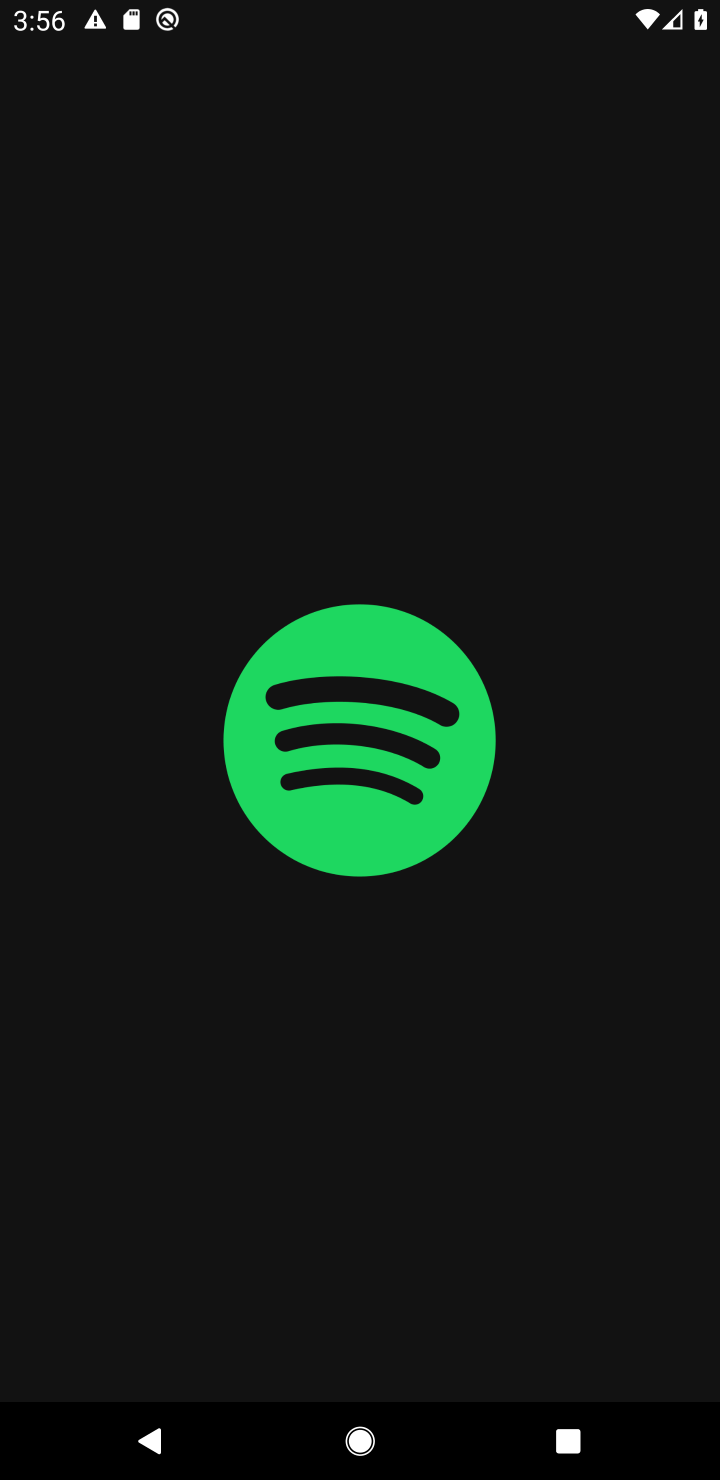
Step 35: press back button
Your task to perform on an android device: install app "Speedtest by Ookla" Image 36: 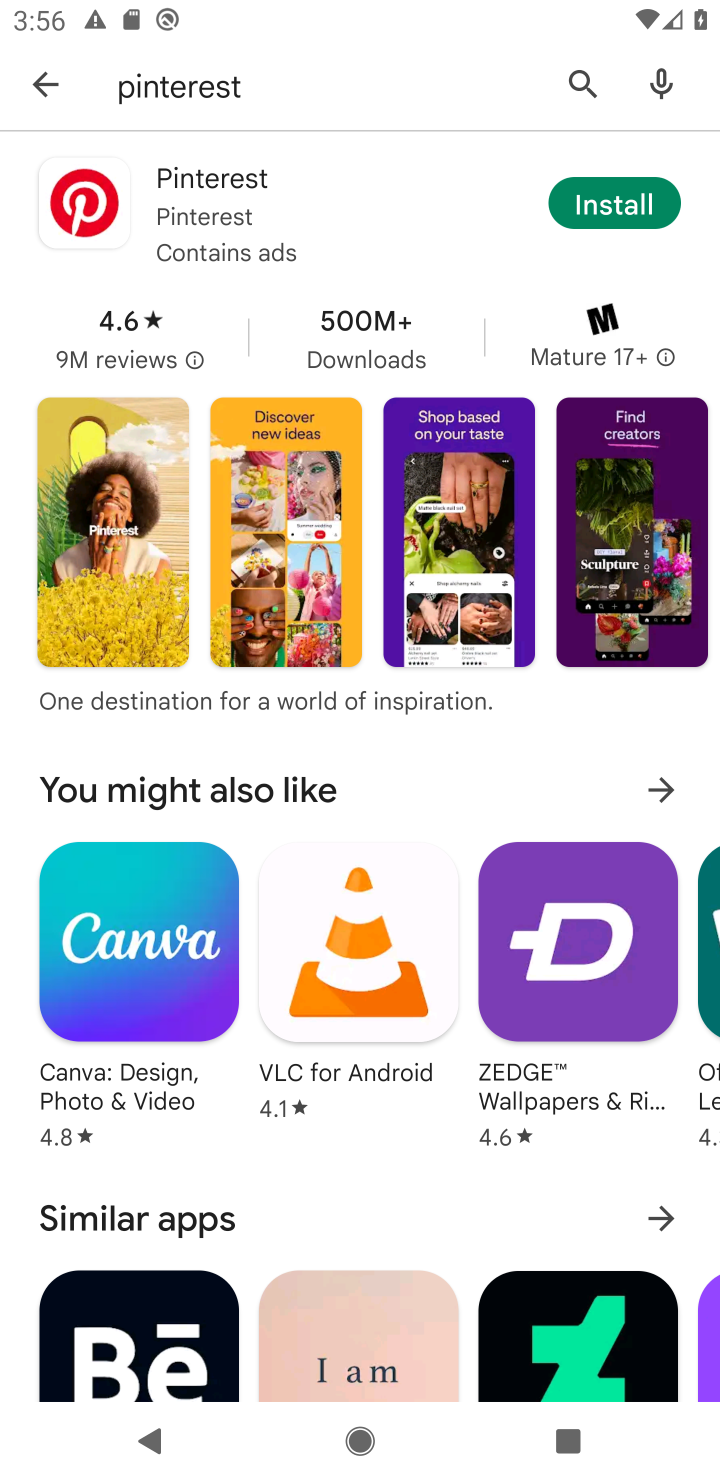
Step 36: click (564, 79)
Your task to perform on an android device: install app "Speedtest by Ookla" Image 37: 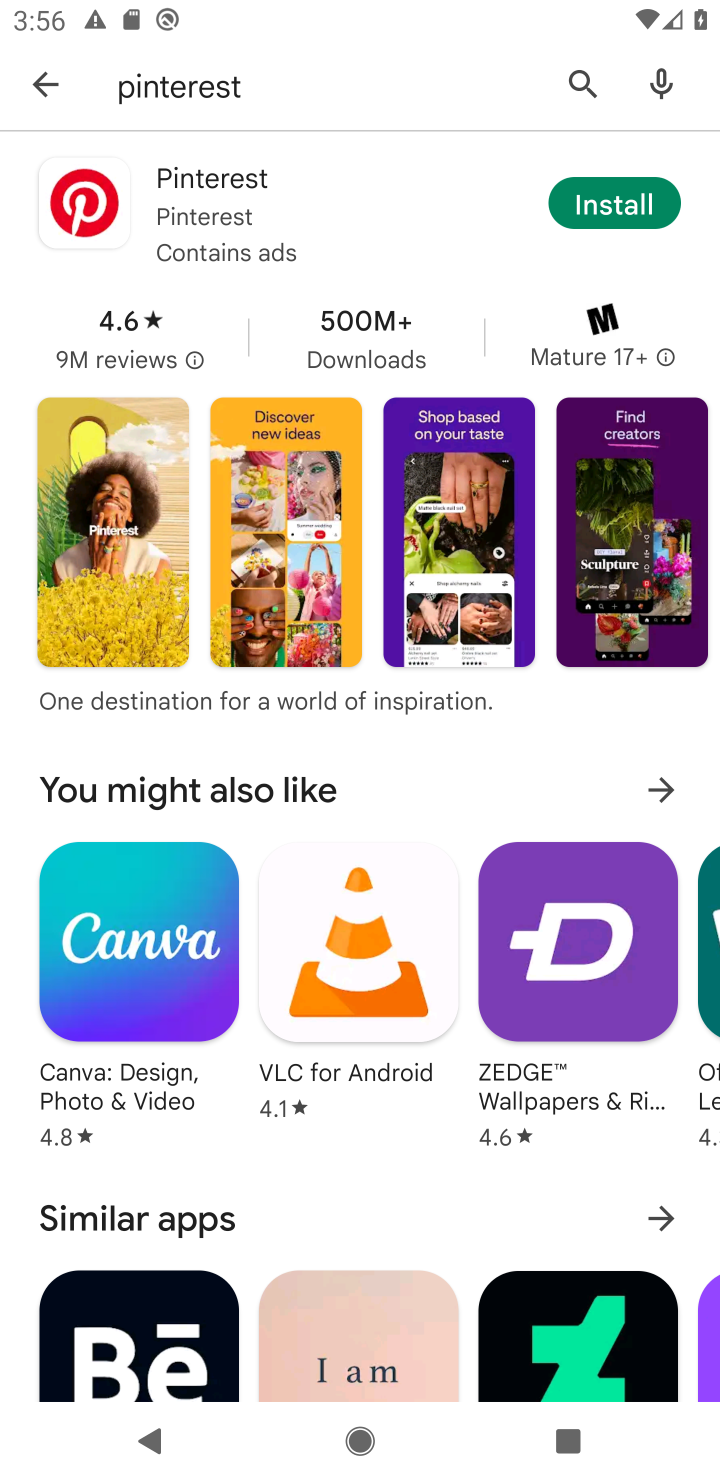
Step 37: click (573, 79)
Your task to perform on an android device: install app "Speedtest by Ookla" Image 38: 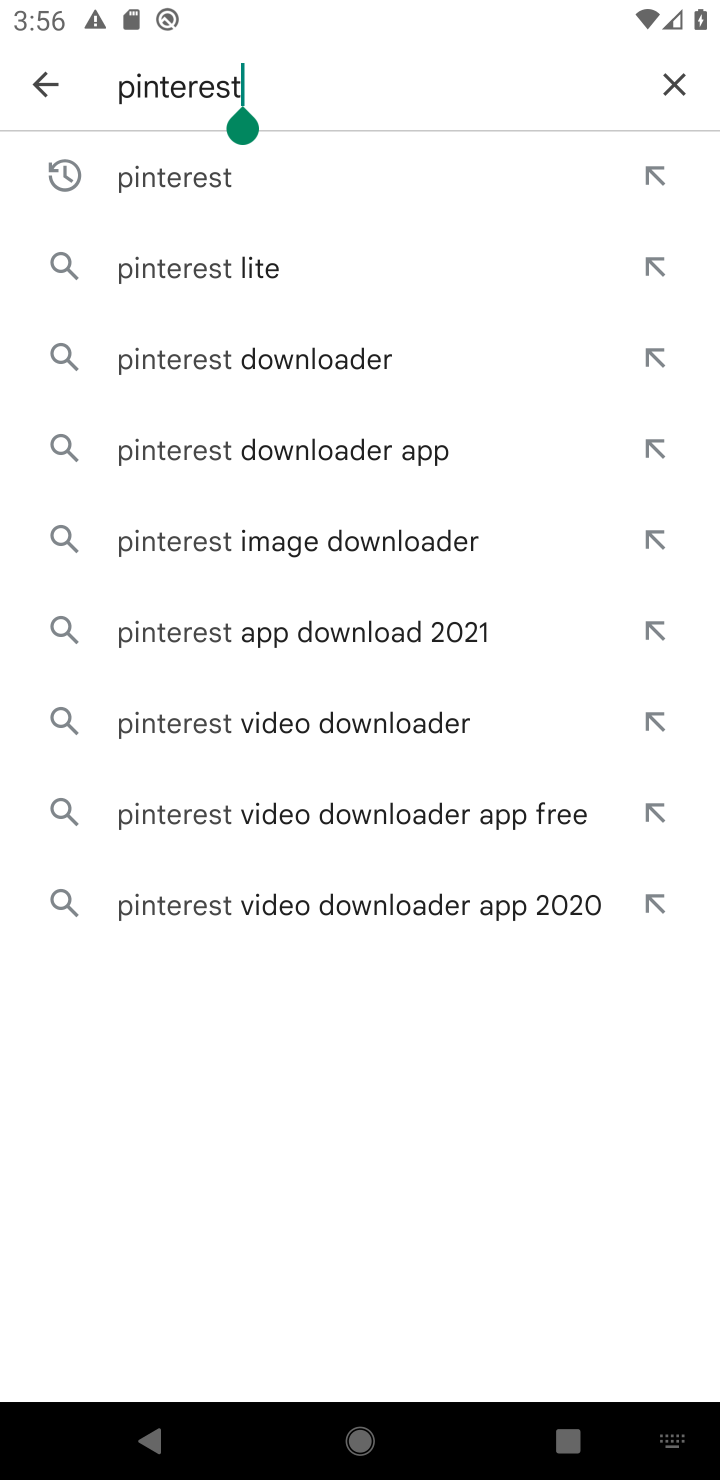
Step 38: click (654, 68)
Your task to perform on an android device: install app "Speedtest by Ookla" Image 39: 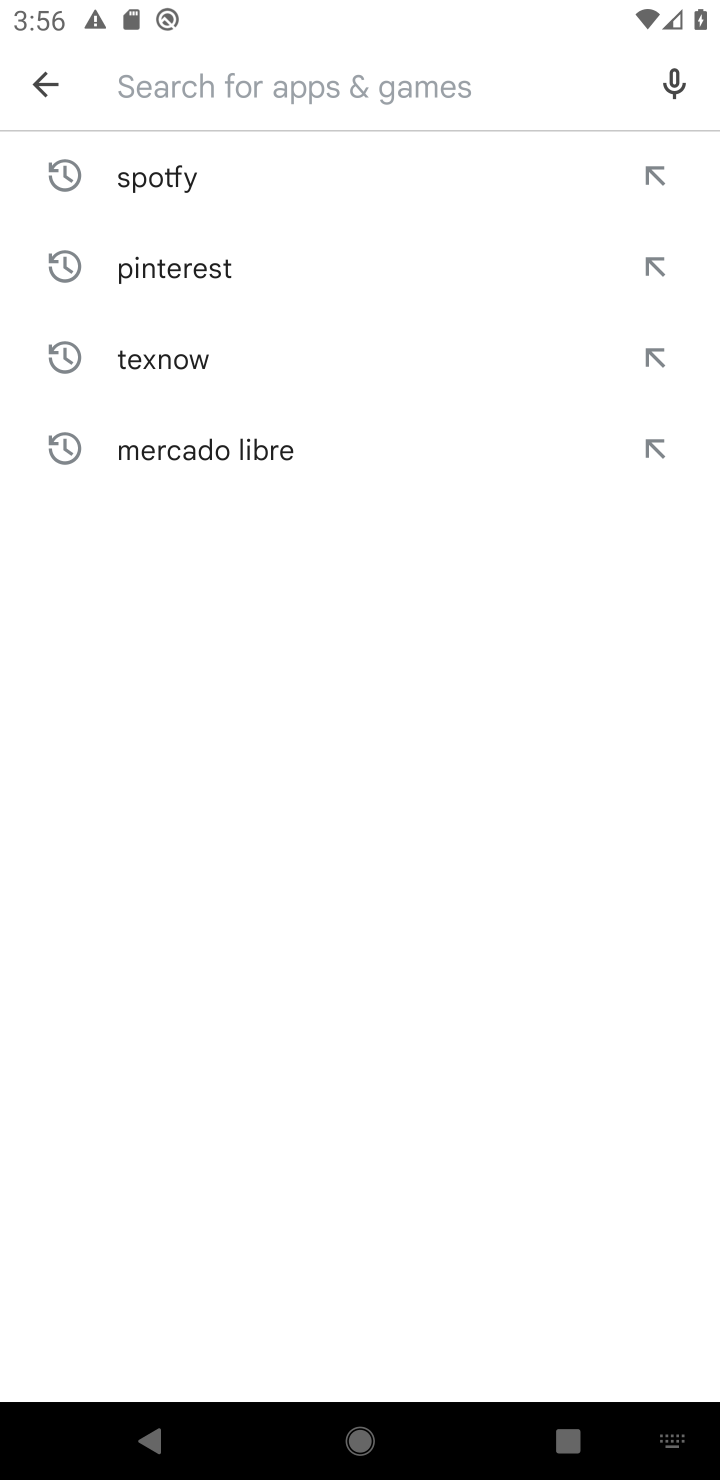
Step 39: type "speedtest by ookla"
Your task to perform on an android device: install app "Speedtest by Ookla" Image 40: 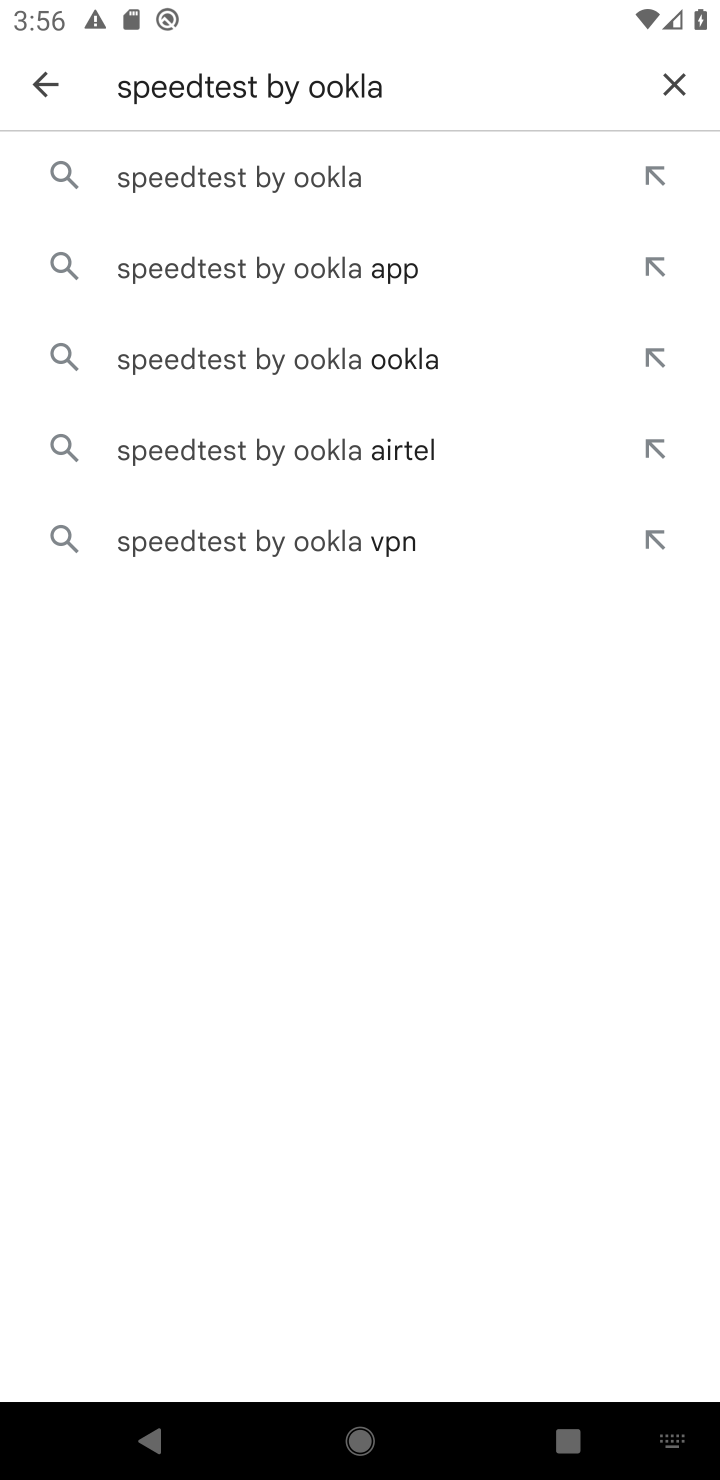
Step 40: click (223, 161)
Your task to perform on an android device: install app "Speedtest by Ookla" Image 41: 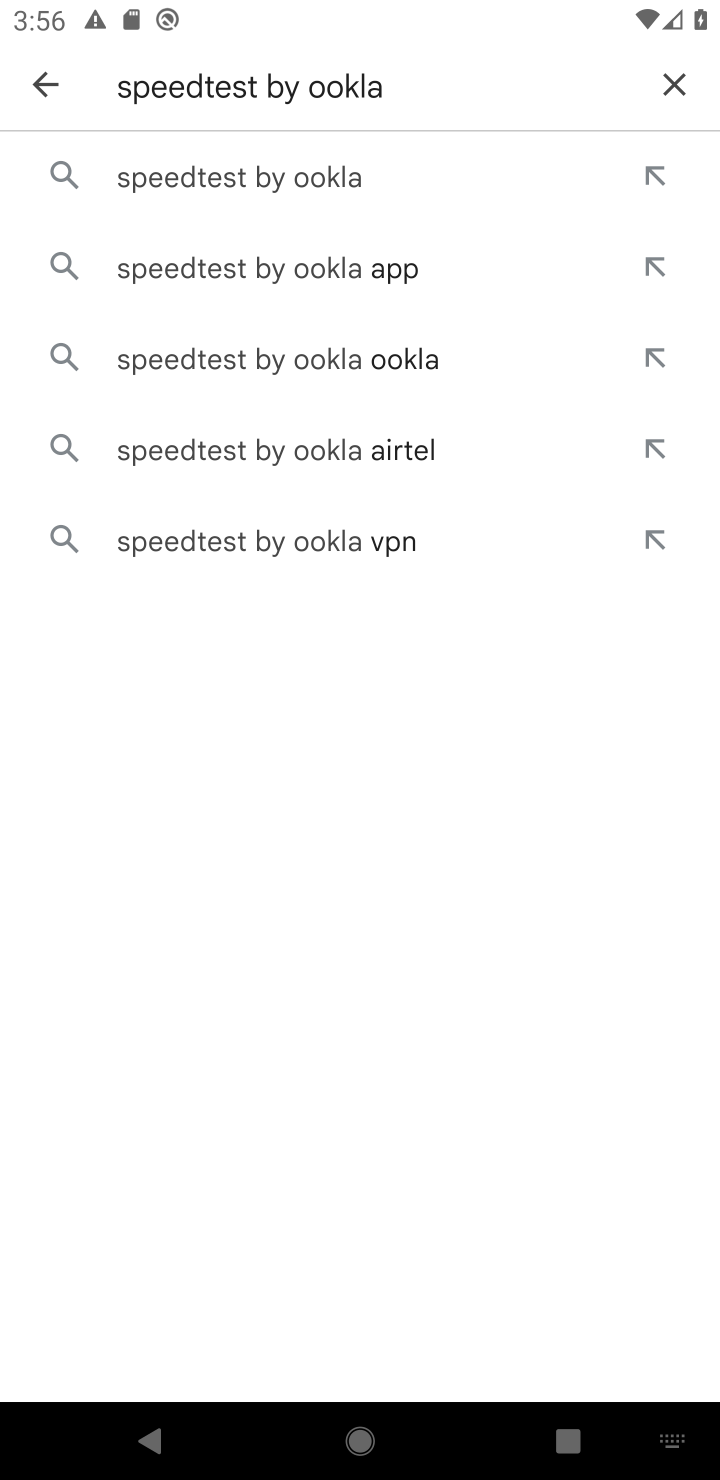
Step 41: click (223, 163)
Your task to perform on an android device: install app "Speedtest by Ookla" Image 42: 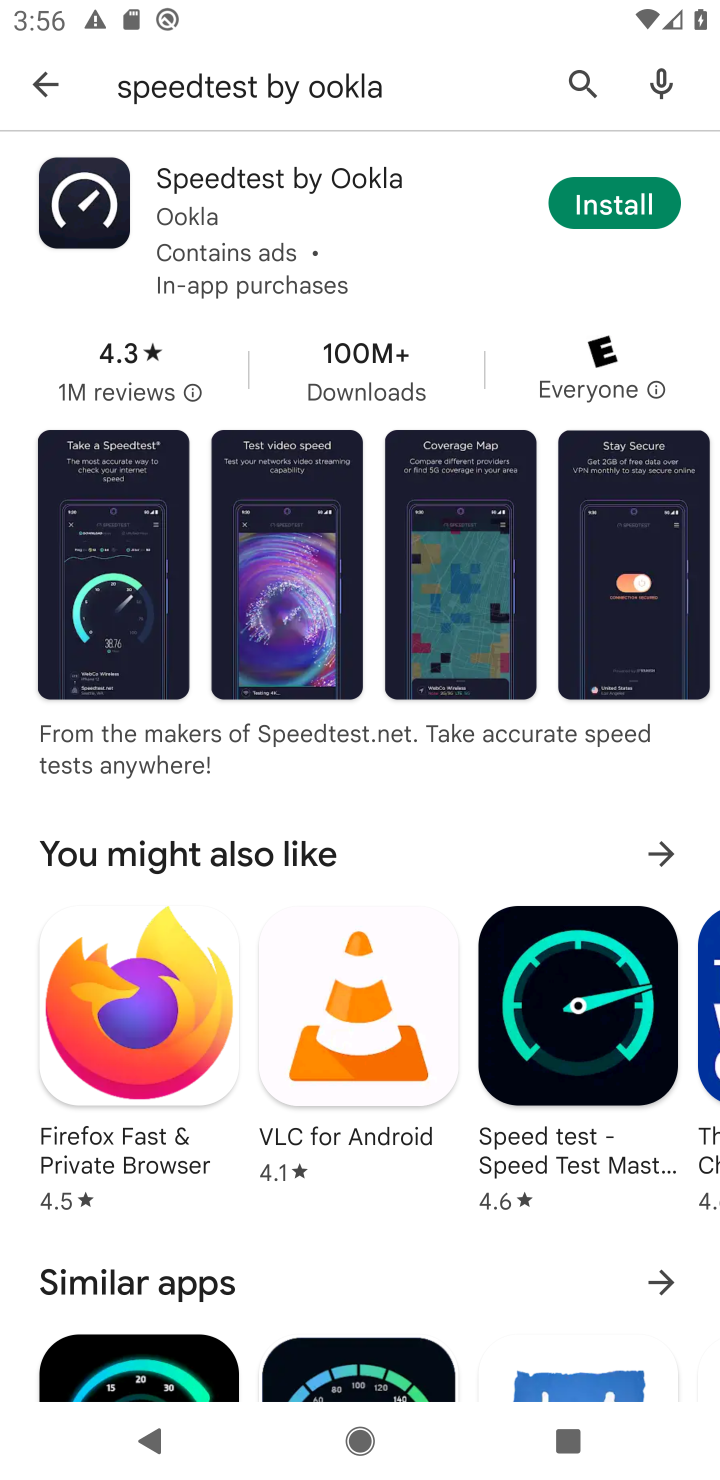
Step 42: click (622, 186)
Your task to perform on an android device: install app "Speedtest by Ookla" Image 43: 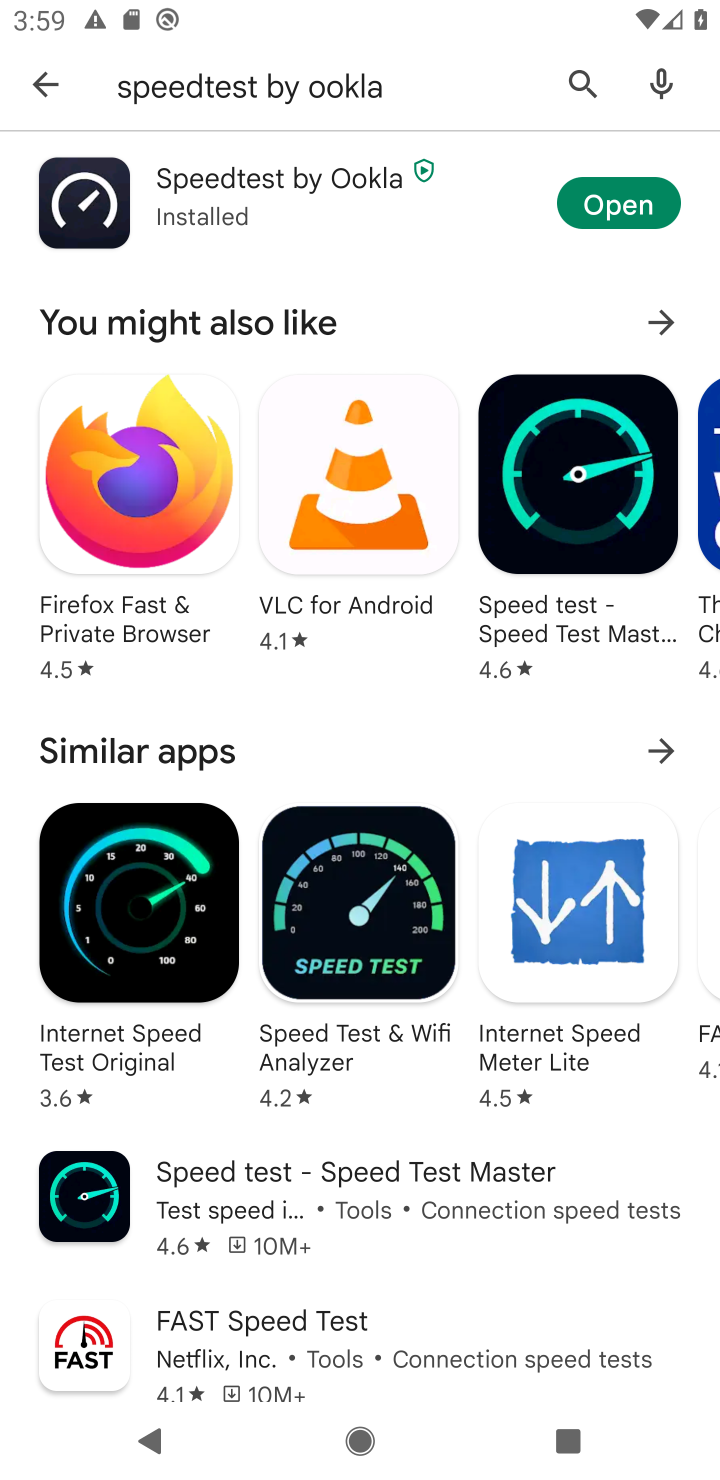
Step 43: click (595, 200)
Your task to perform on an android device: install app "Speedtest by Ookla" Image 44: 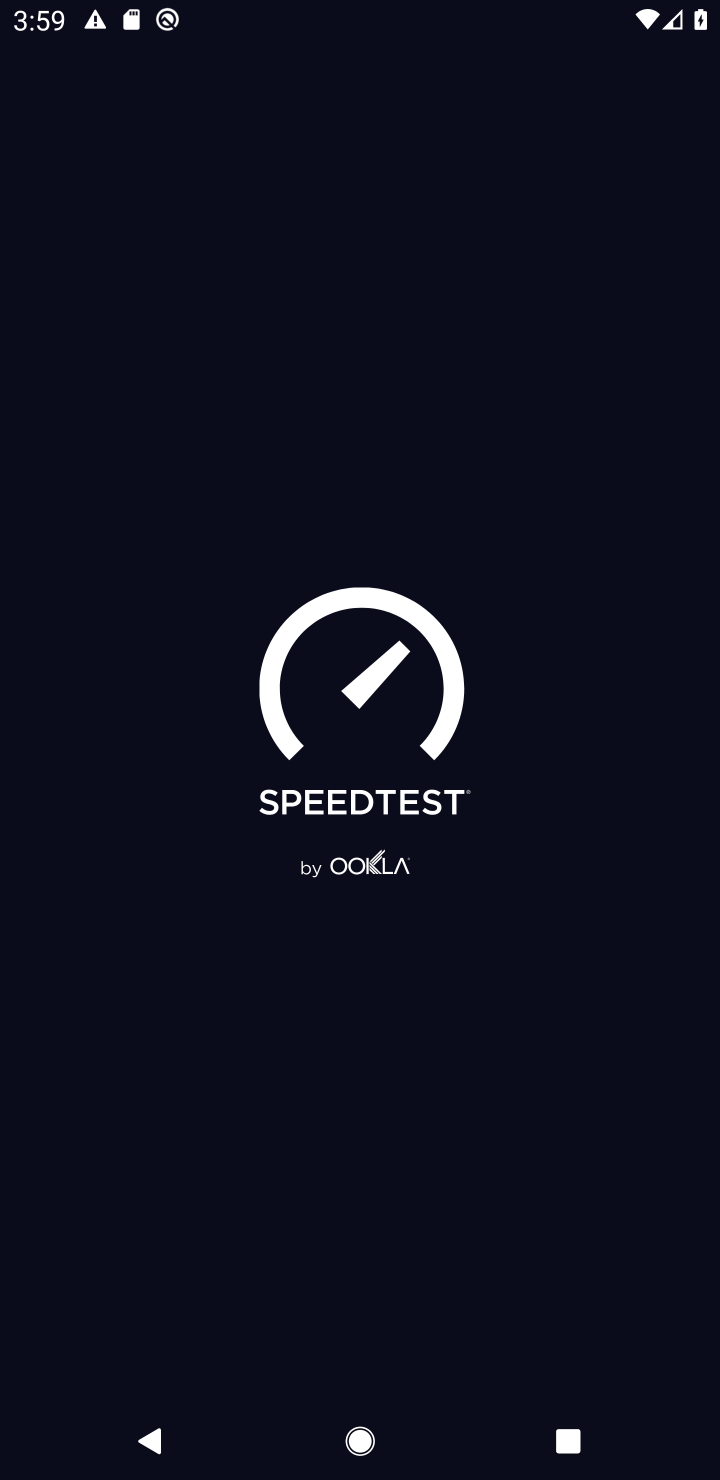
Step 44: task complete